Your task to perform on an android device: check data usage Image 0: 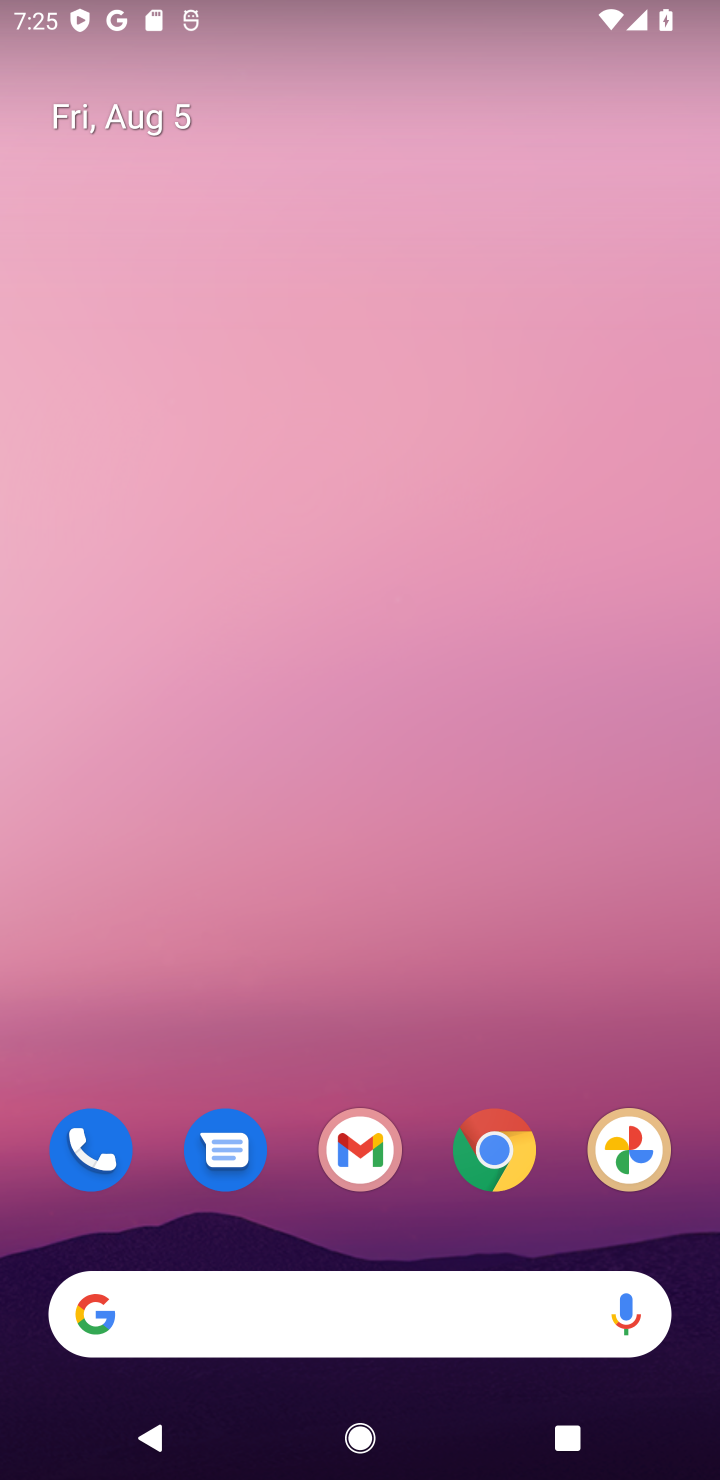
Step 0: drag from (442, 1018) to (464, 443)
Your task to perform on an android device: check data usage Image 1: 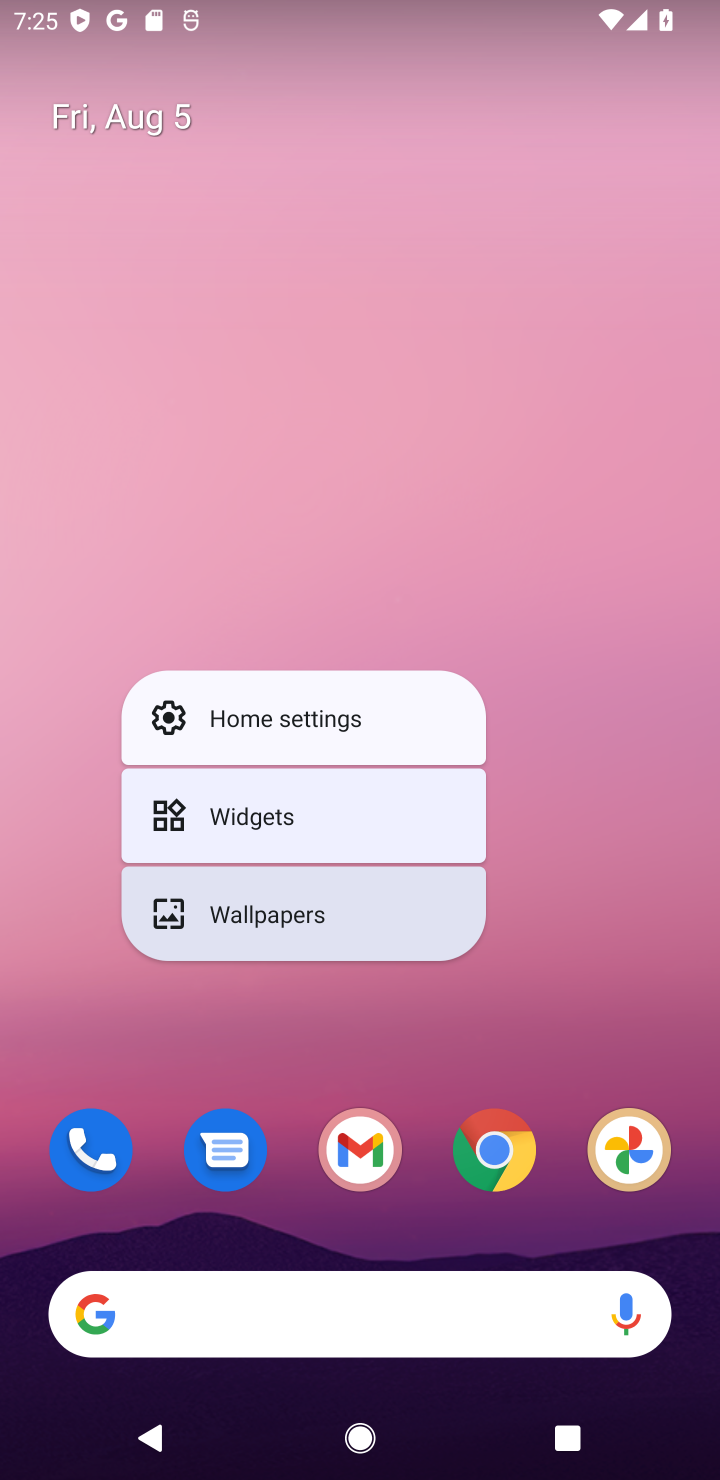
Step 1: click (560, 761)
Your task to perform on an android device: check data usage Image 2: 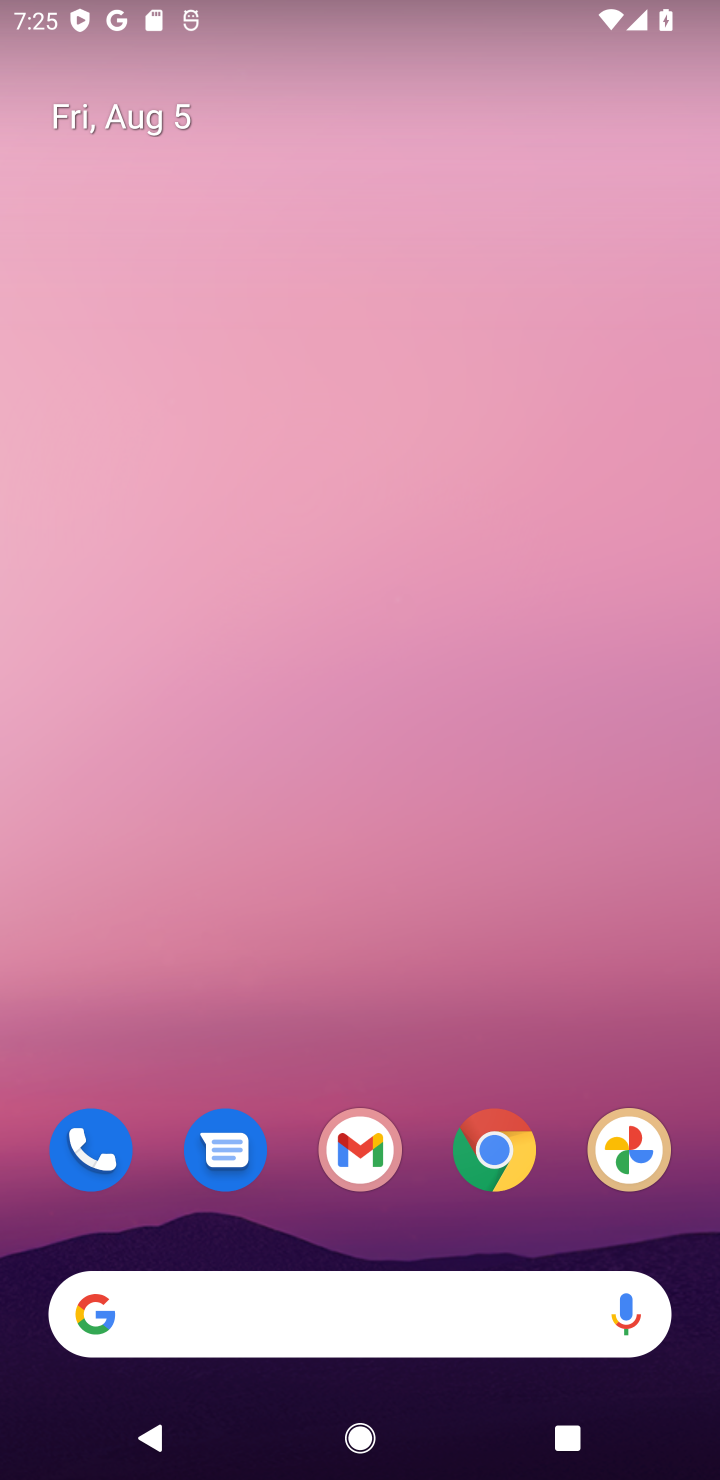
Step 2: drag from (409, 1108) to (446, 427)
Your task to perform on an android device: check data usage Image 3: 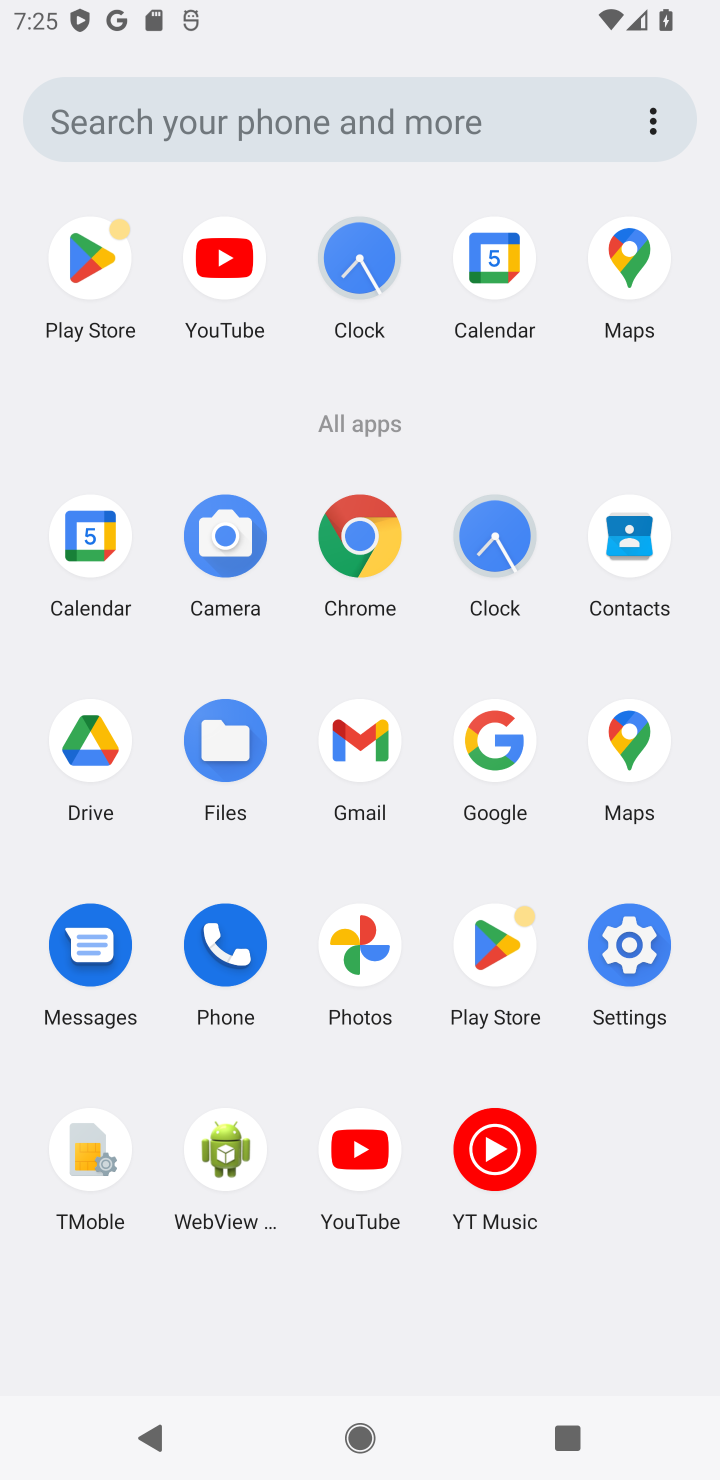
Step 3: click (644, 944)
Your task to perform on an android device: check data usage Image 4: 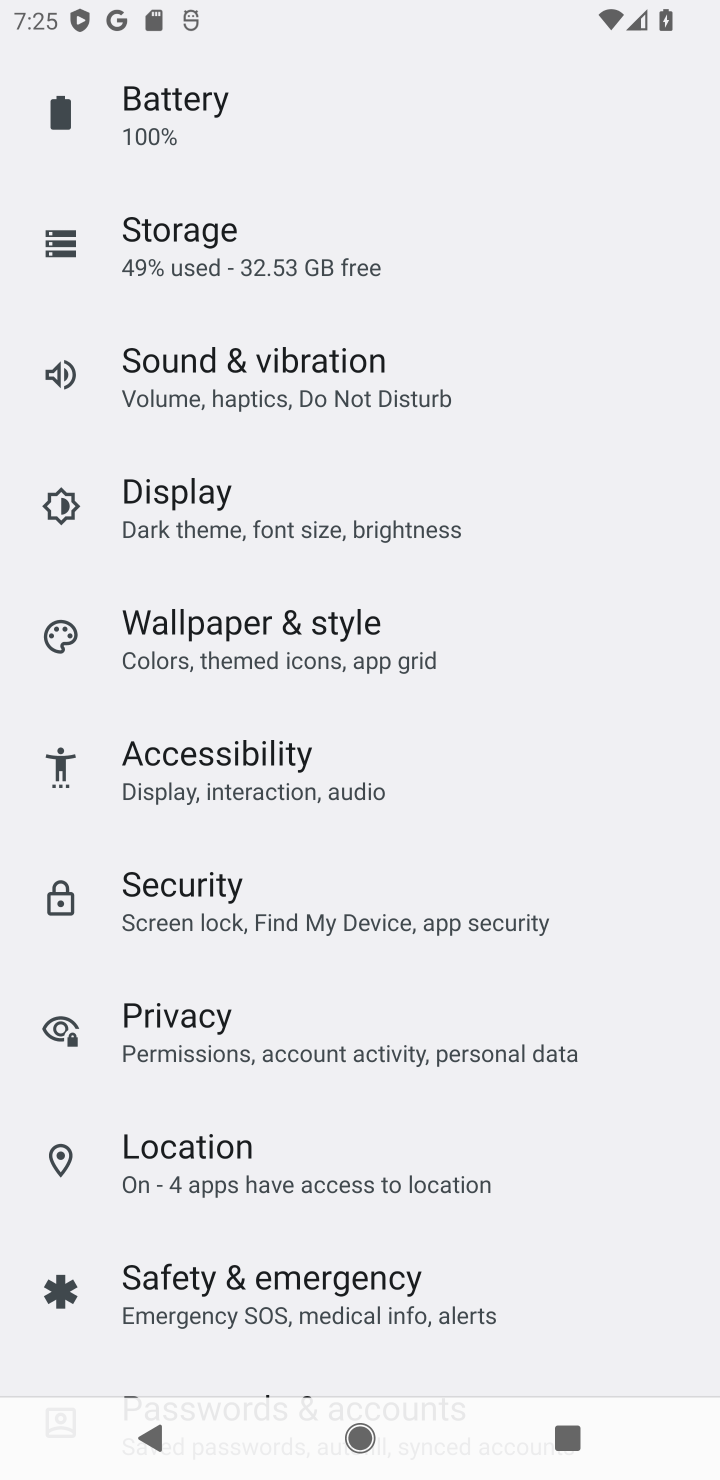
Step 4: drag from (589, 464) to (611, 639)
Your task to perform on an android device: check data usage Image 5: 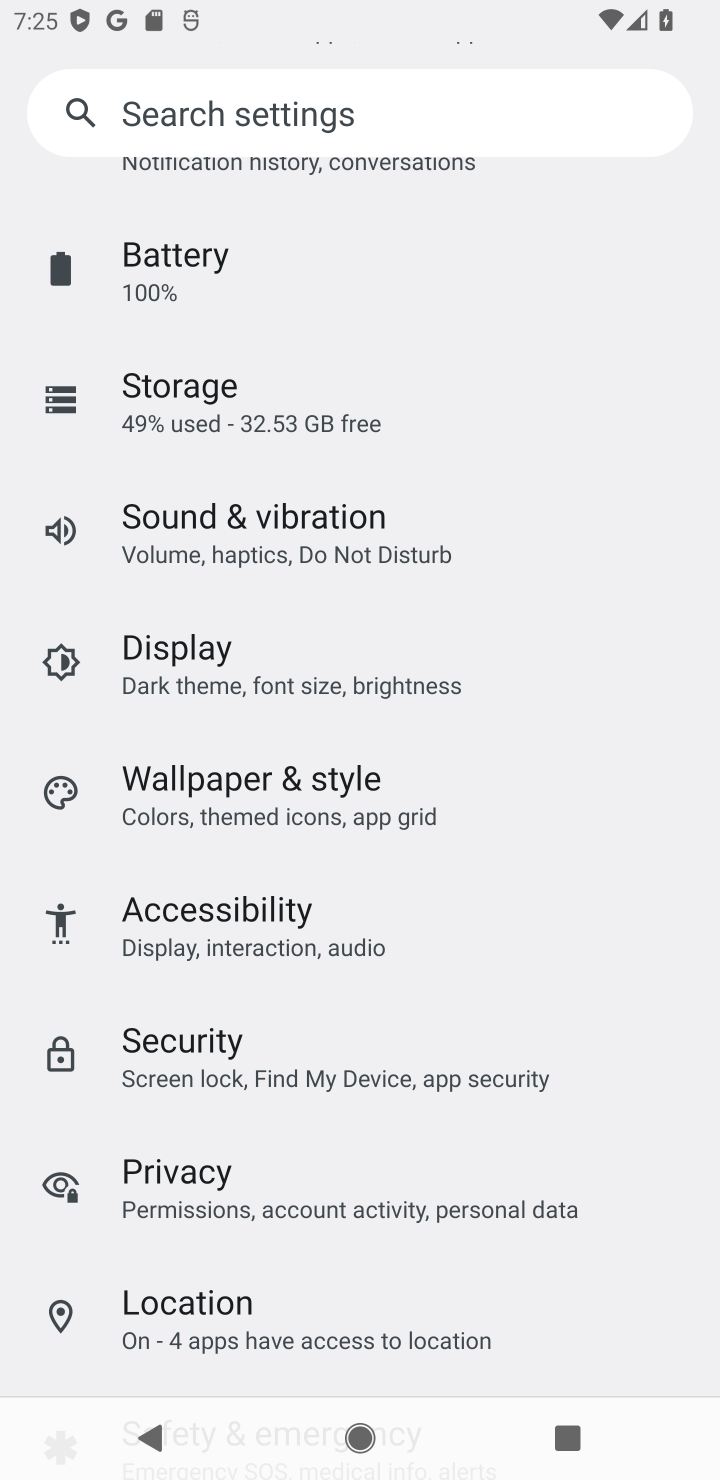
Step 5: drag from (606, 444) to (614, 686)
Your task to perform on an android device: check data usage Image 6: 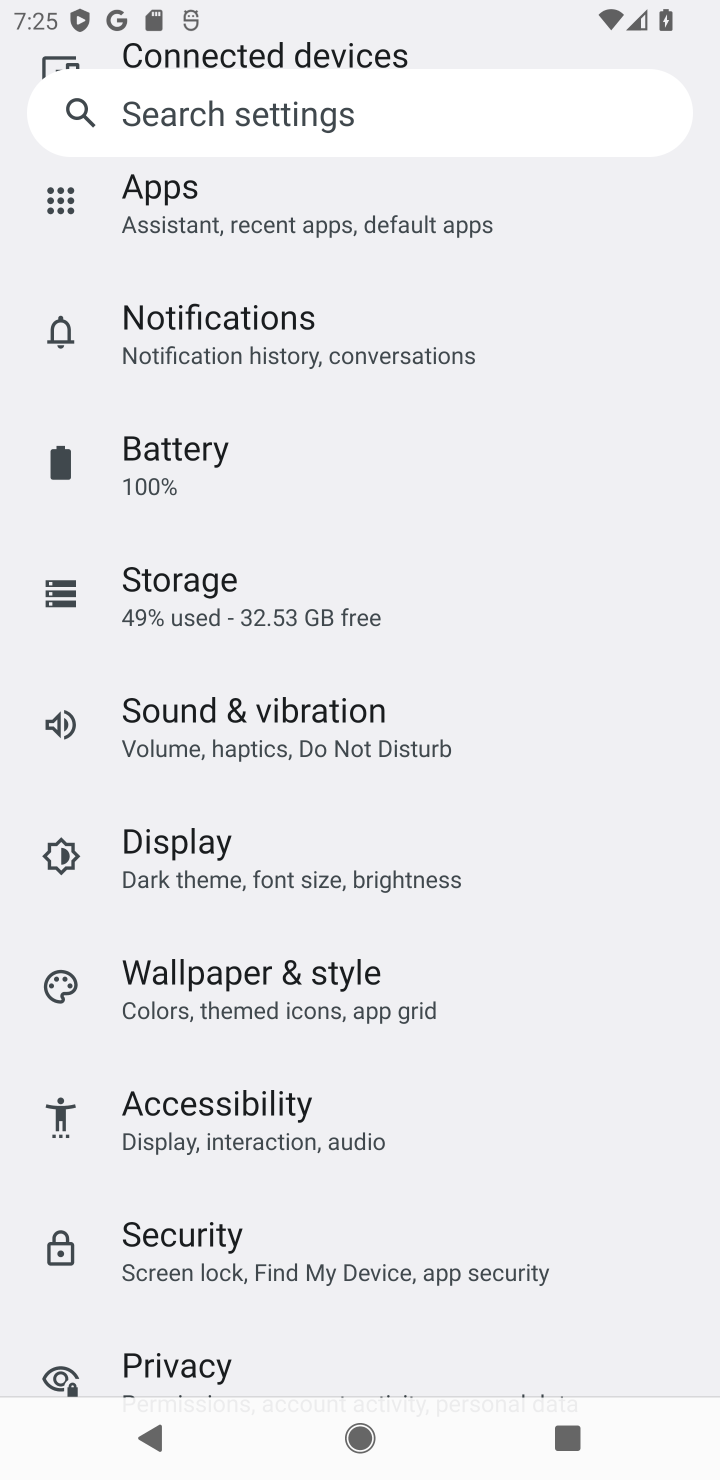
Step 6: drag from (593, 427) to (593, 514)
Your task to perform on an android device: check data usage Image 7: 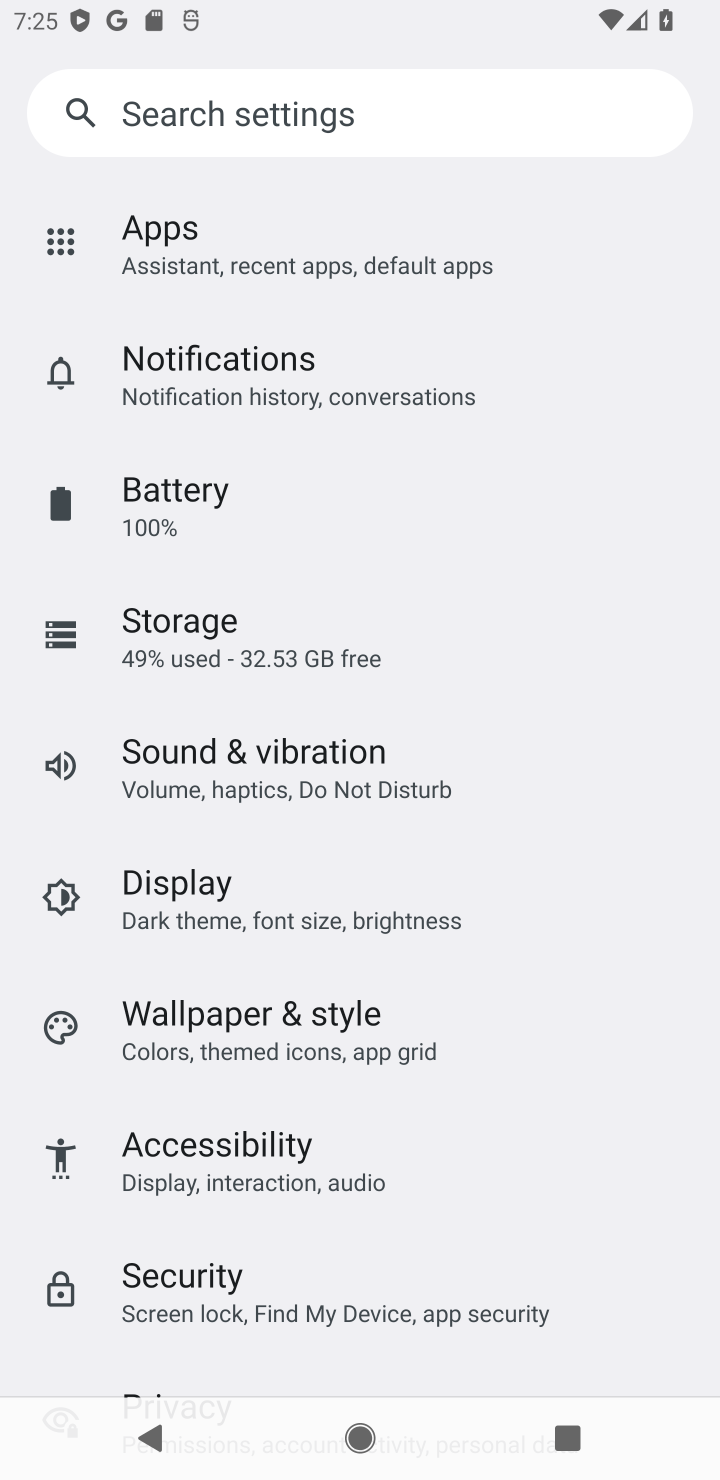
Step 7: drag from (624, 336) to (628, 683)
Your task to perform on an android device: check data usage Image 8: 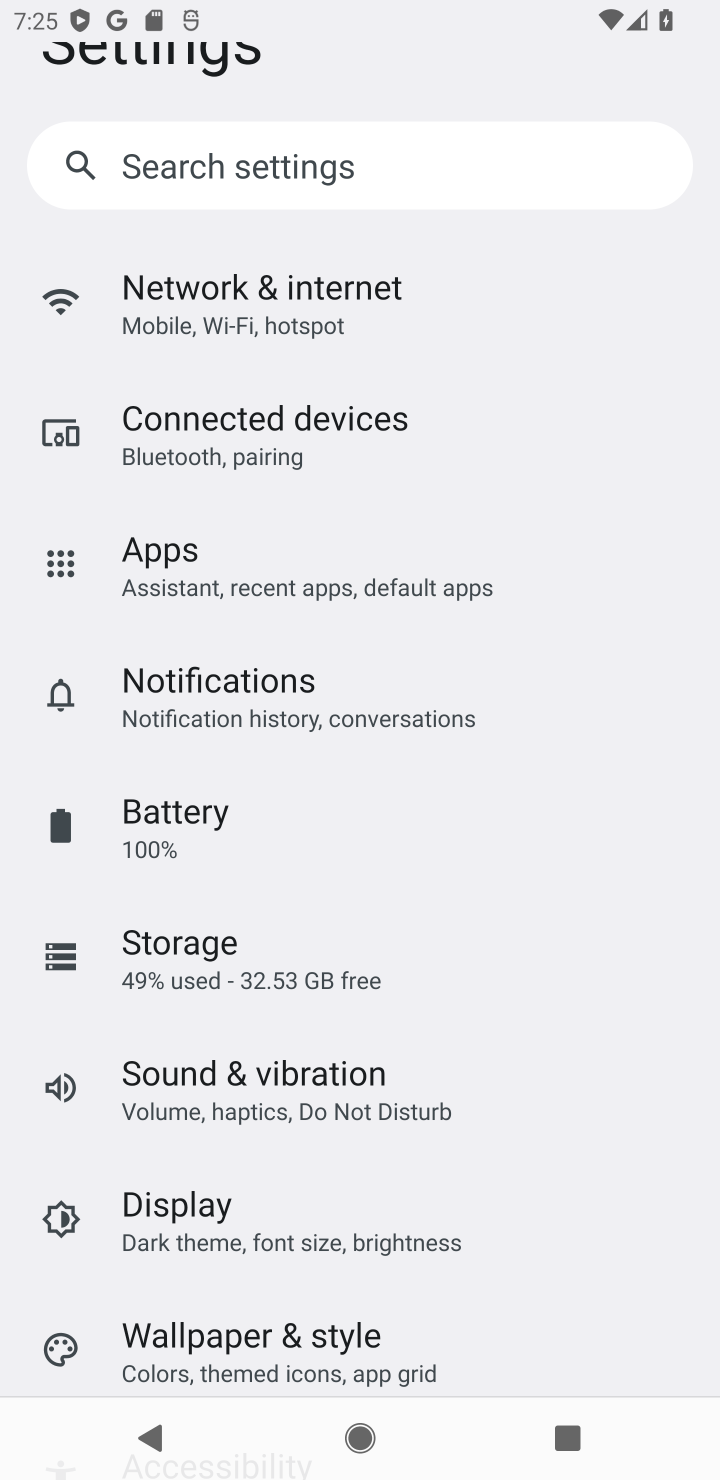
Step 8: drag from (615, 278) to (618, 555)
Your task to perform on an android device: check data usage Image 9: 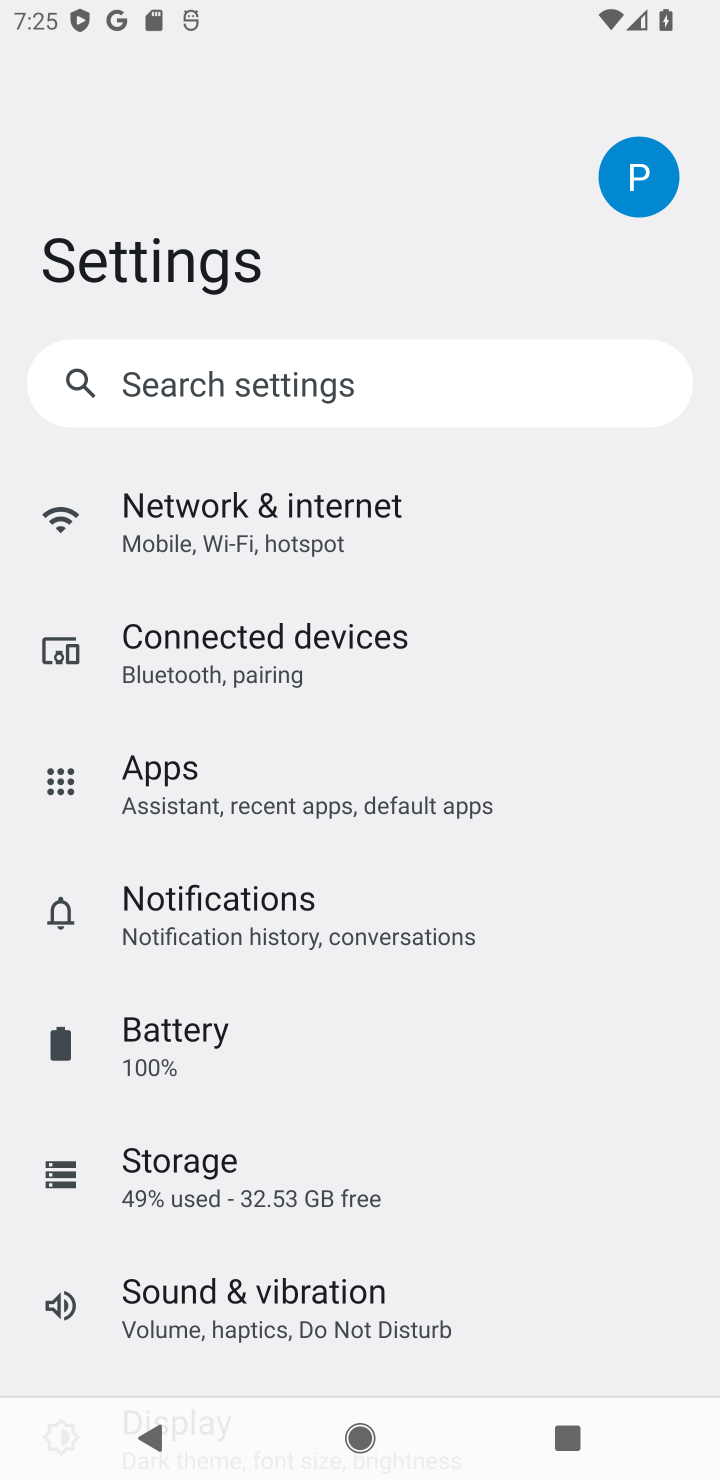
Step 9: drag from (589, 484) to (611, 754)
Your task to perform on an android device: check data usage Image 10: 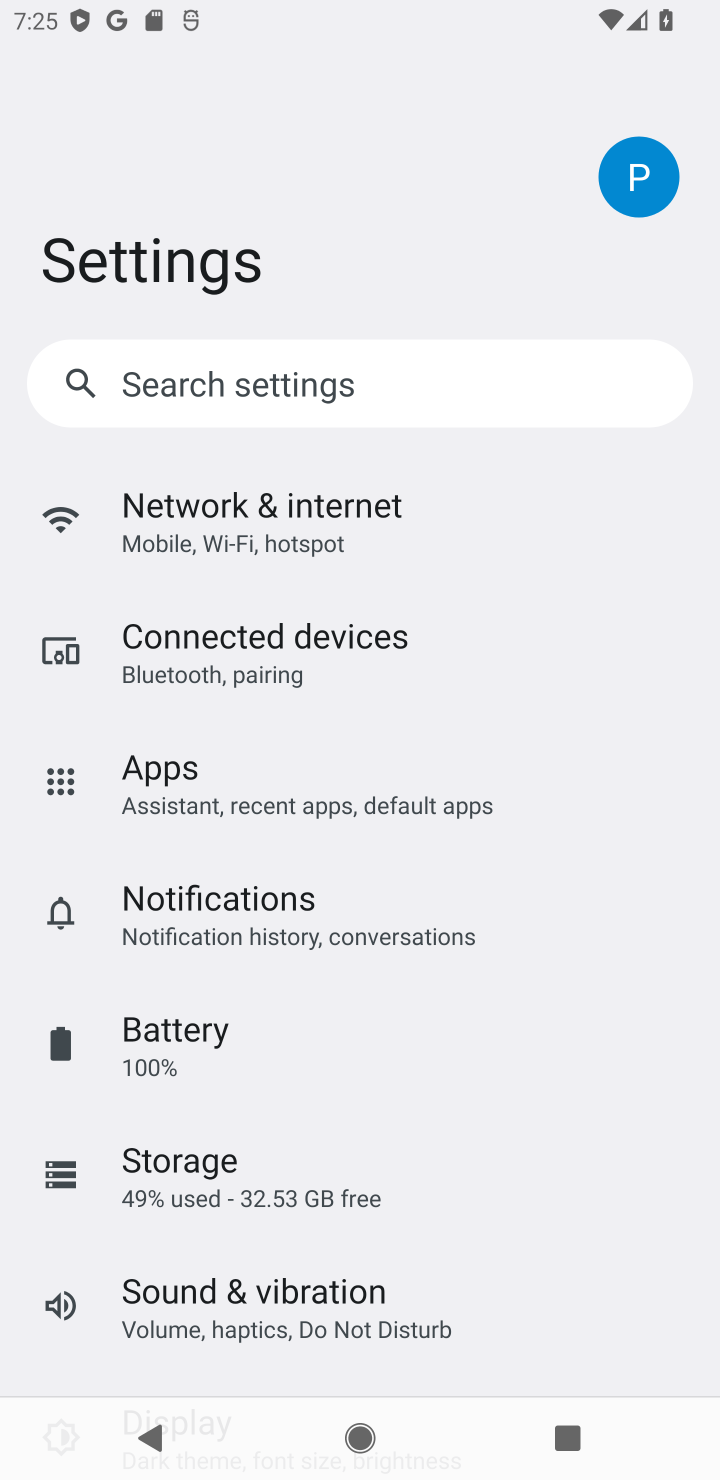
Step 10: drag from (609, 502) to (614, 791)
Your task to perform on an android device: check data usage Image 11: 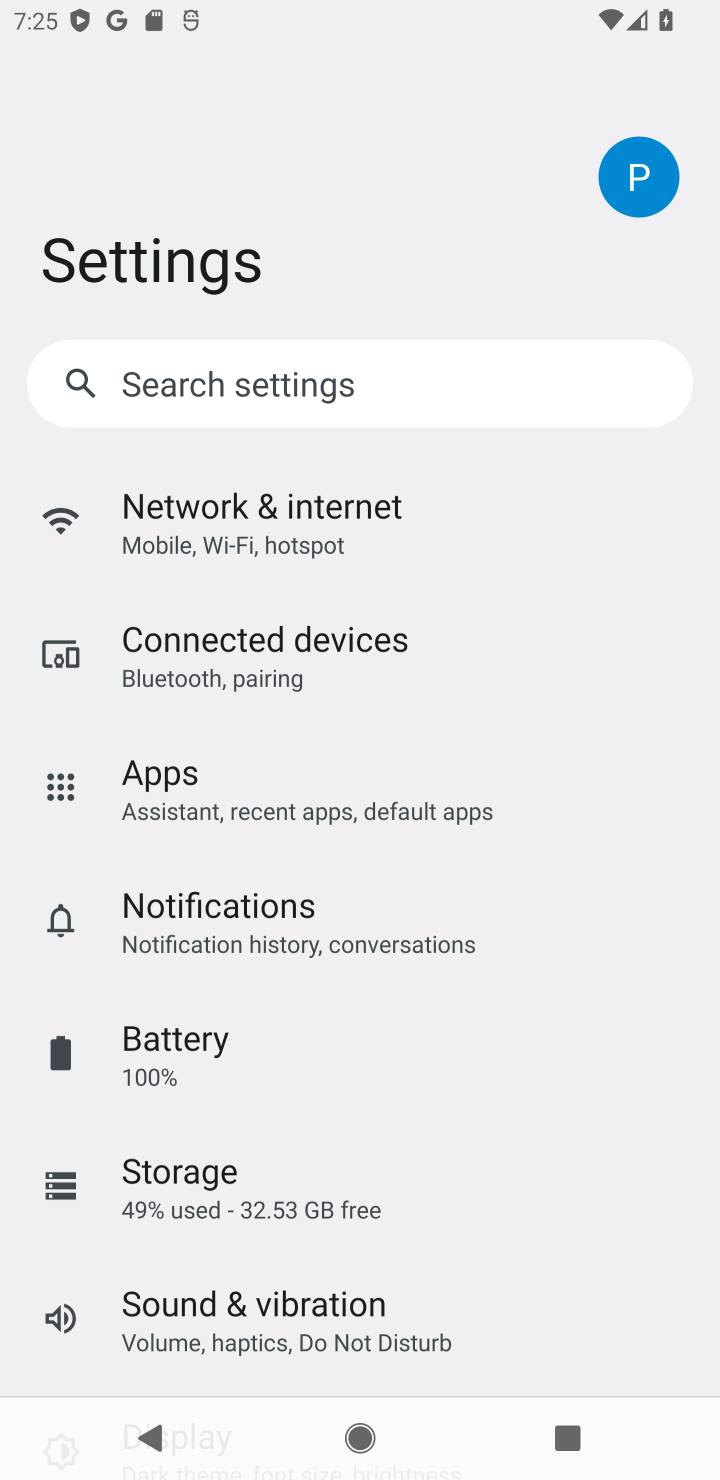
Step 11: drag from (539, 1033) to (583, 655)
Your task to perform on an android device: check data usage Image 12: 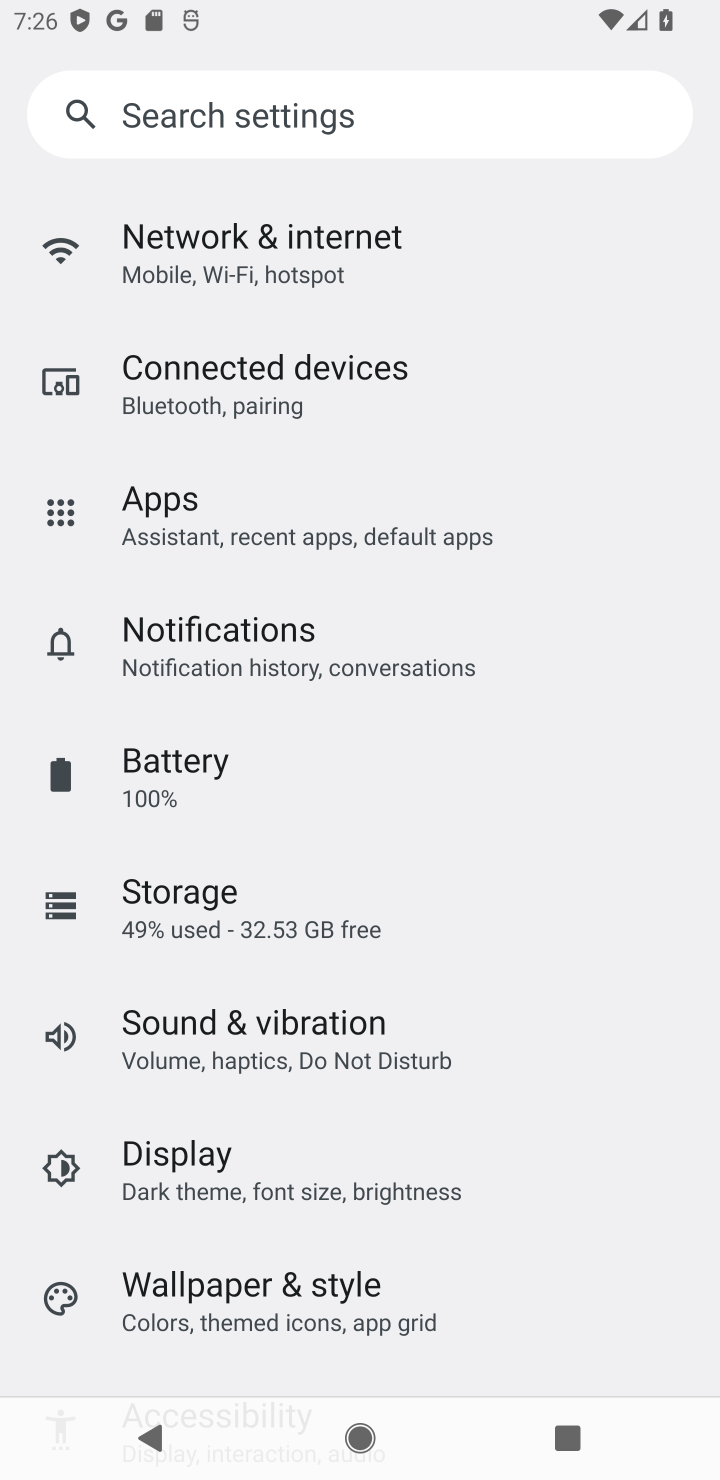
Step 12: drag from (555, 1016) to (561, 689)
Your task to perform on an android device: check data usage Image 13: 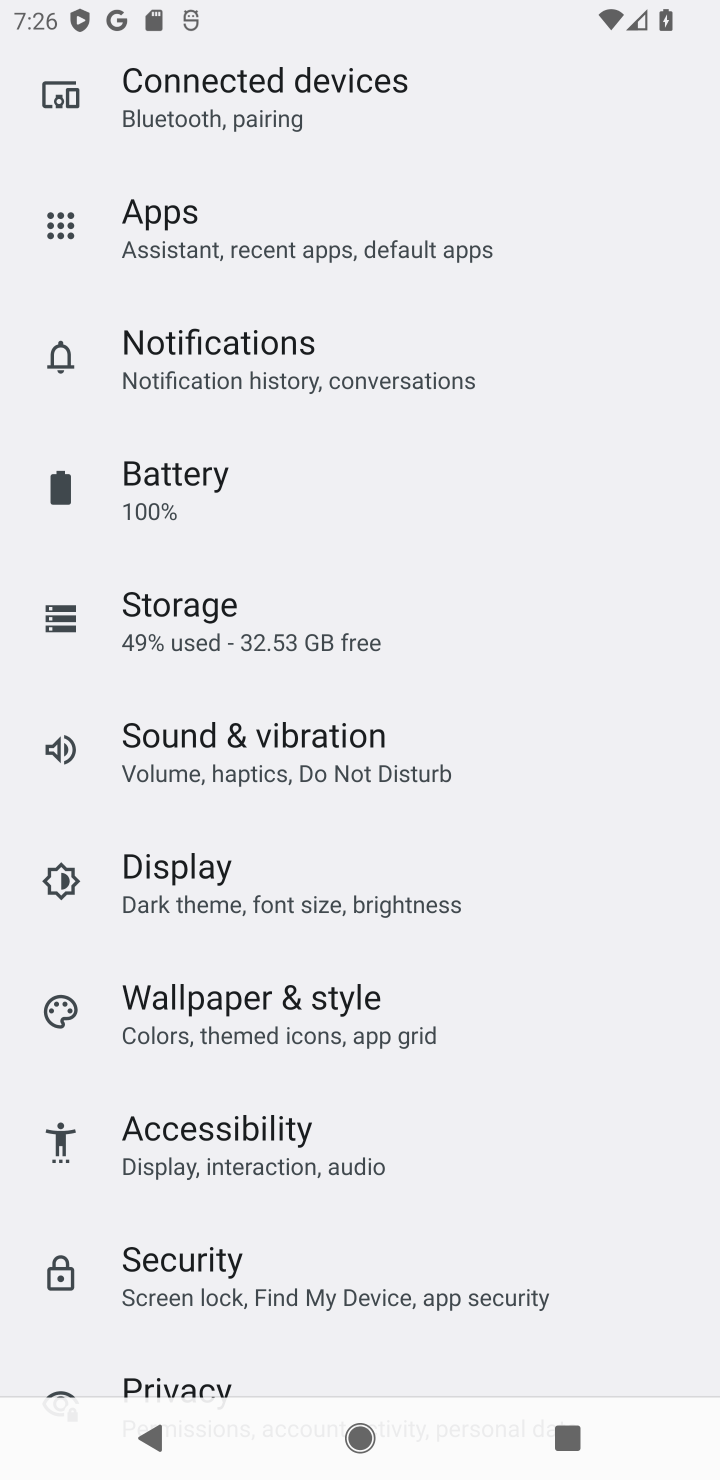
Step 13: drag from (540, 1065) to (531, 703)
Your task to perform on an android device: check data usage Image 14: 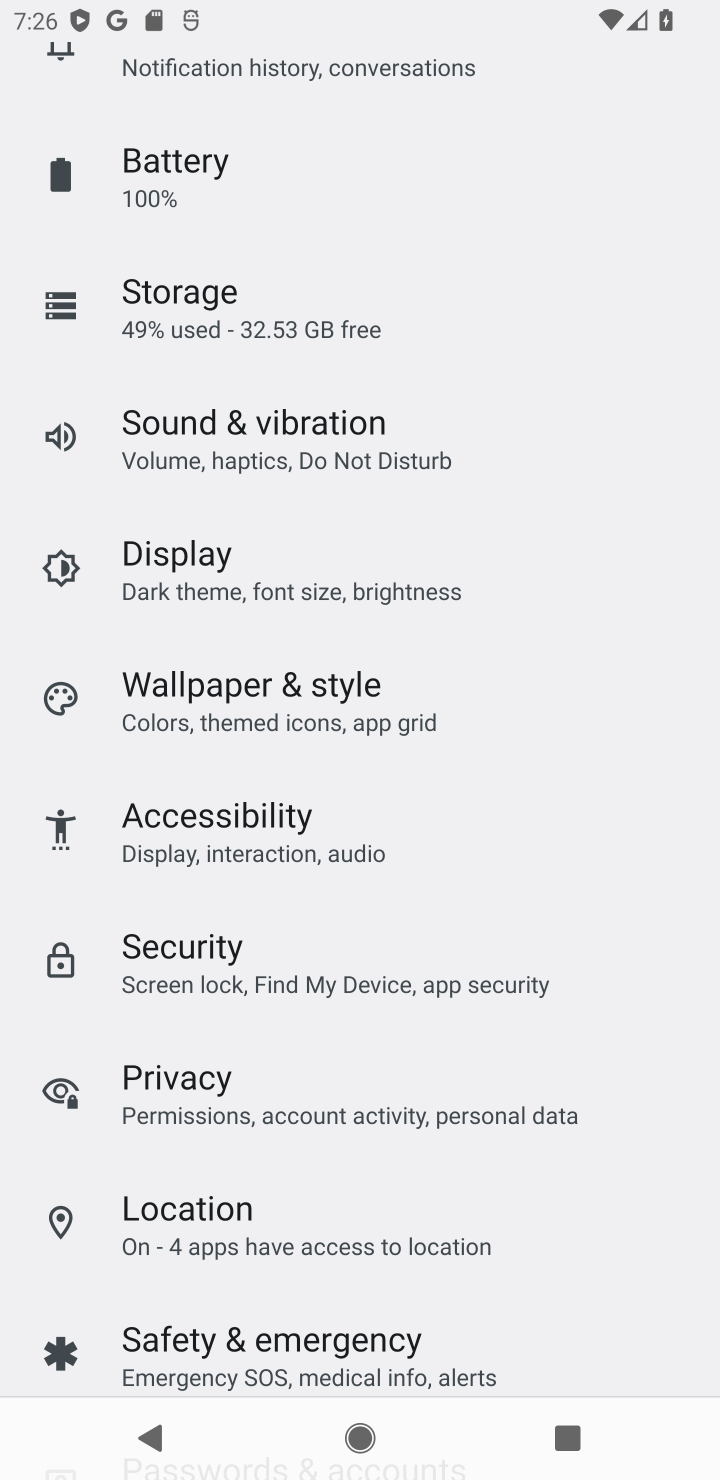
Step 14: drag from (462, 984) to (471, 757)
Your task to perform on an android device: check data usage Image 15: 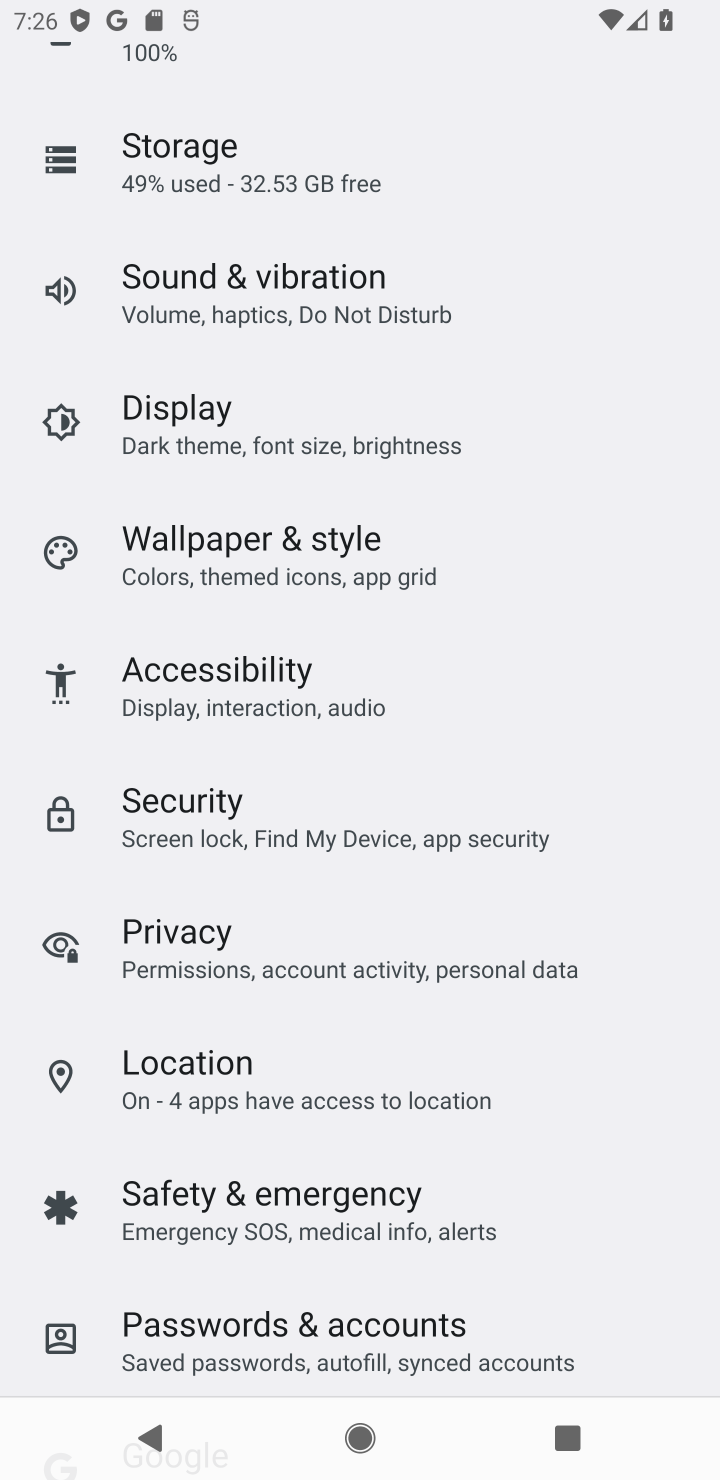
Step 15: drag from (592, 393) to (613, 776)
Your task to perform on an android device: check data usage Image 16: 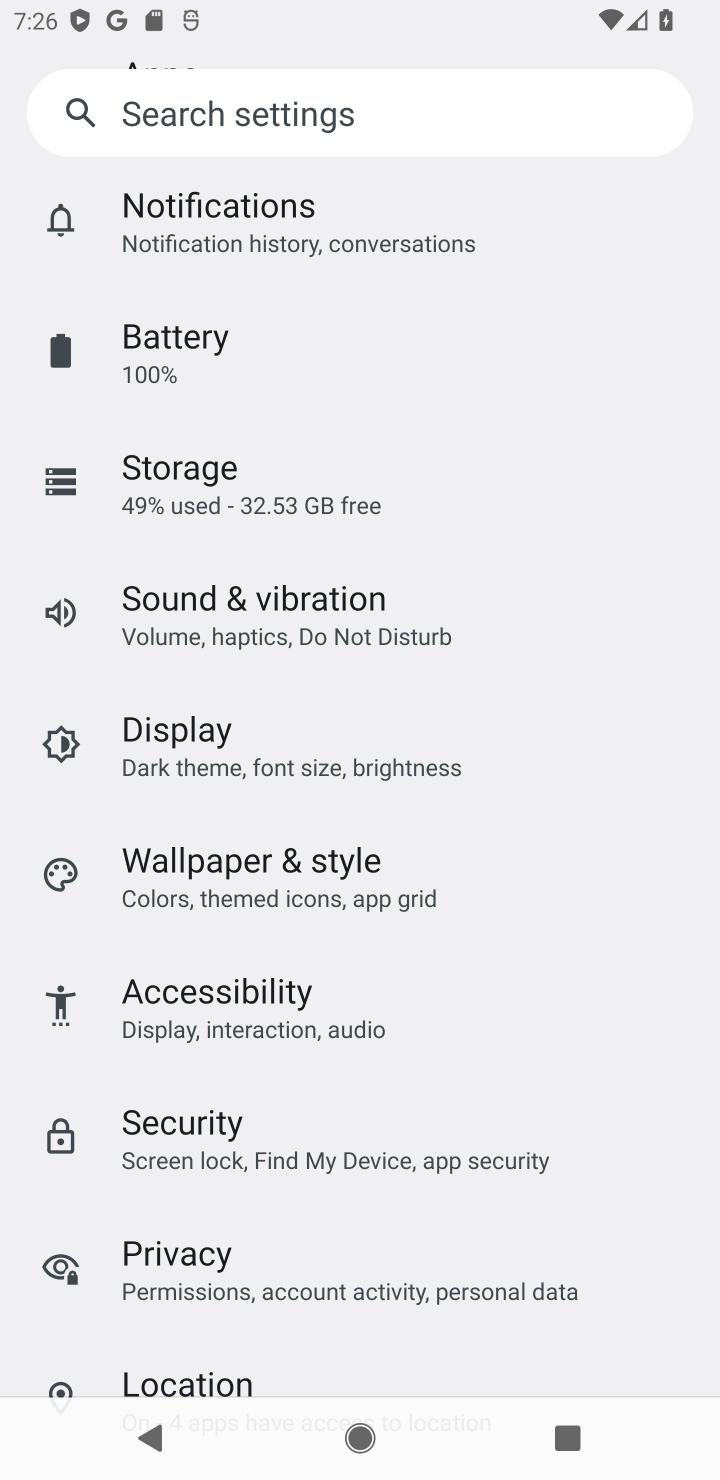
Step 16: drag from (578, 421) to (581, 805)
Your task to perform on an android device: check data usage Image 17: 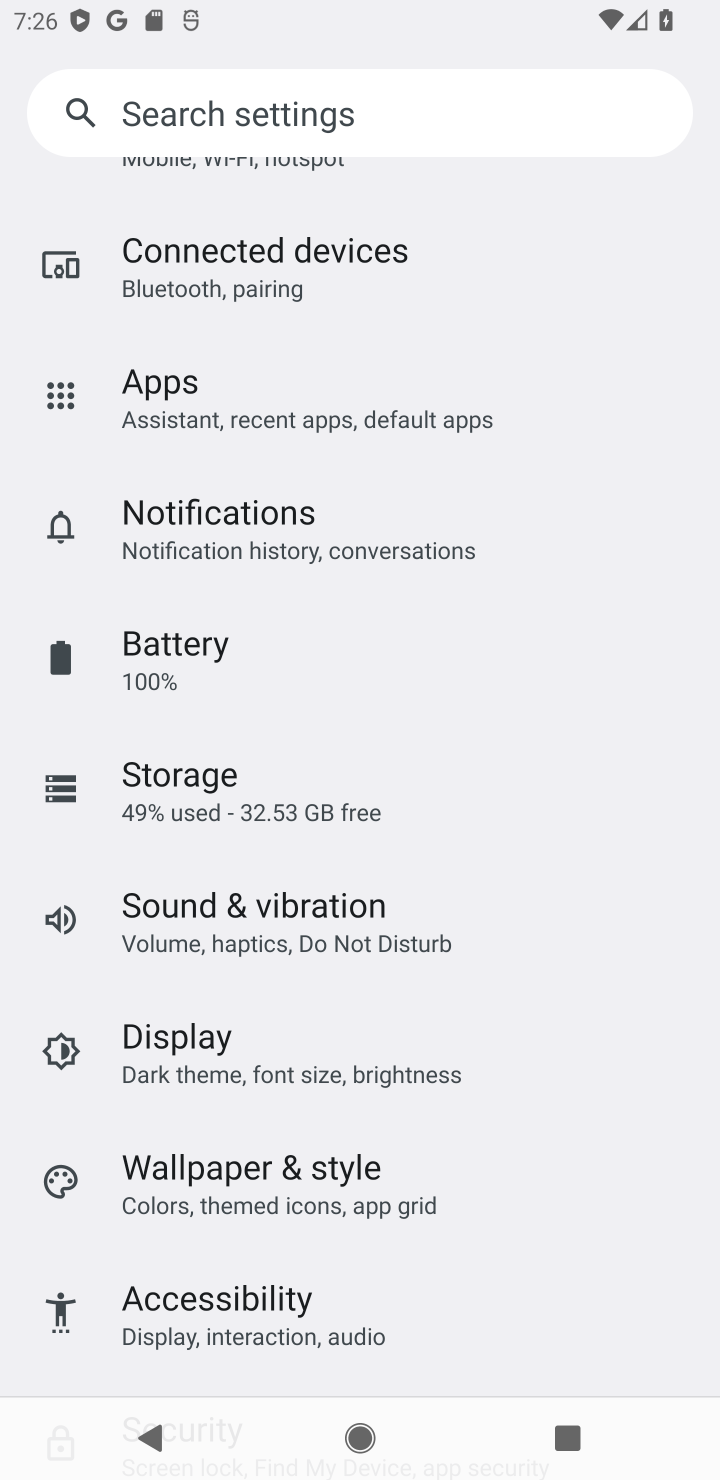
Step 17: drag from (589, 458) to (555, 802)
Your task to perform on an android device: check data usage Image 18: 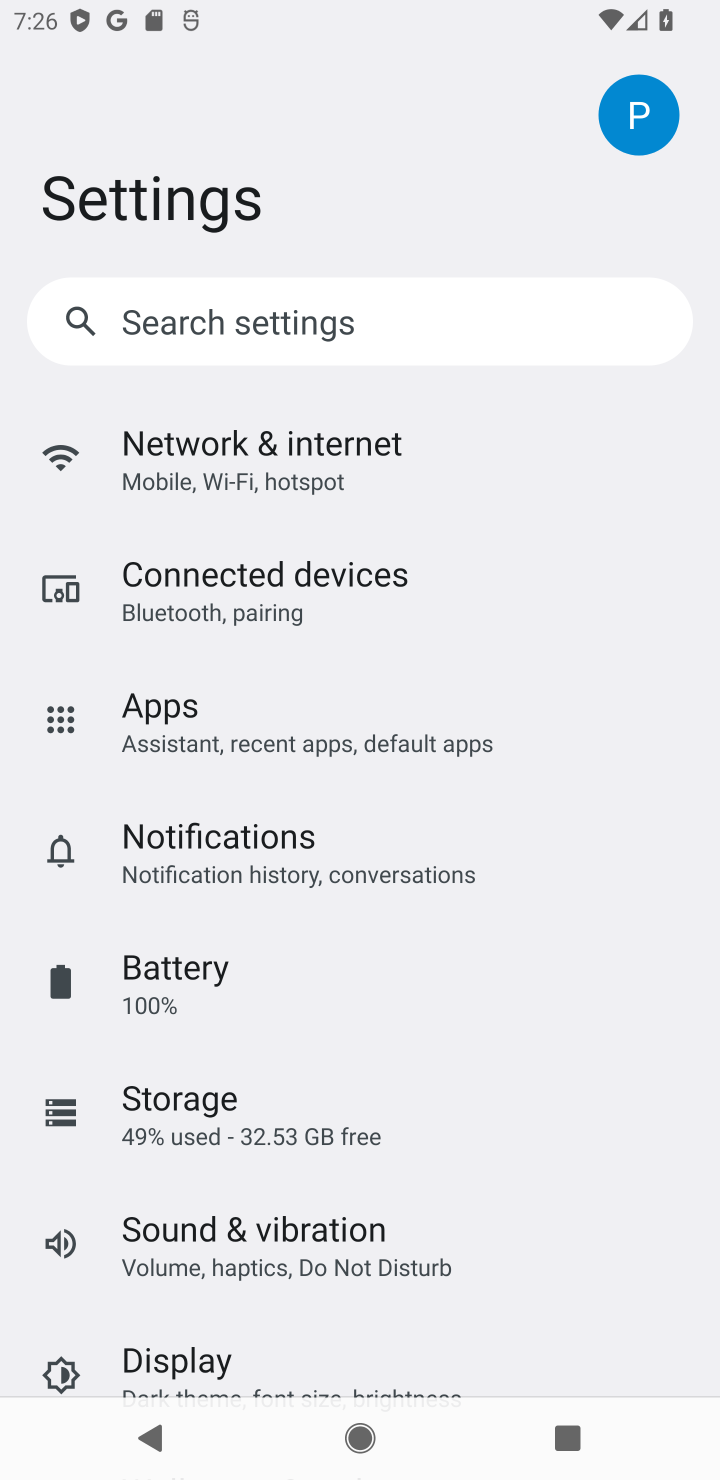
Step 18: drag from (541, 480) to (574, 865)
Your task to perform on an android device: check data usage Image 19: 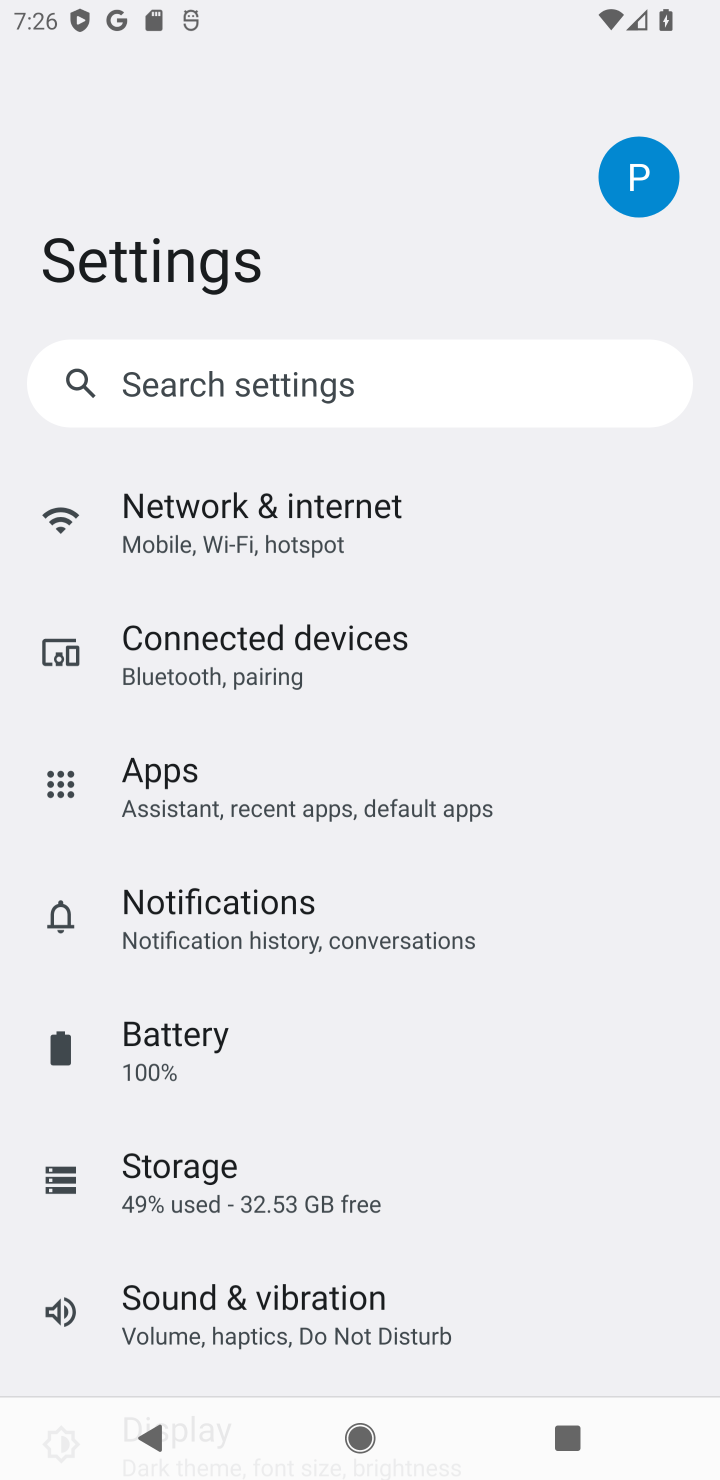
Step 19: drag from (577, 974) to (586, 775)
Your task to perform on an android device: check data usage Image 20: 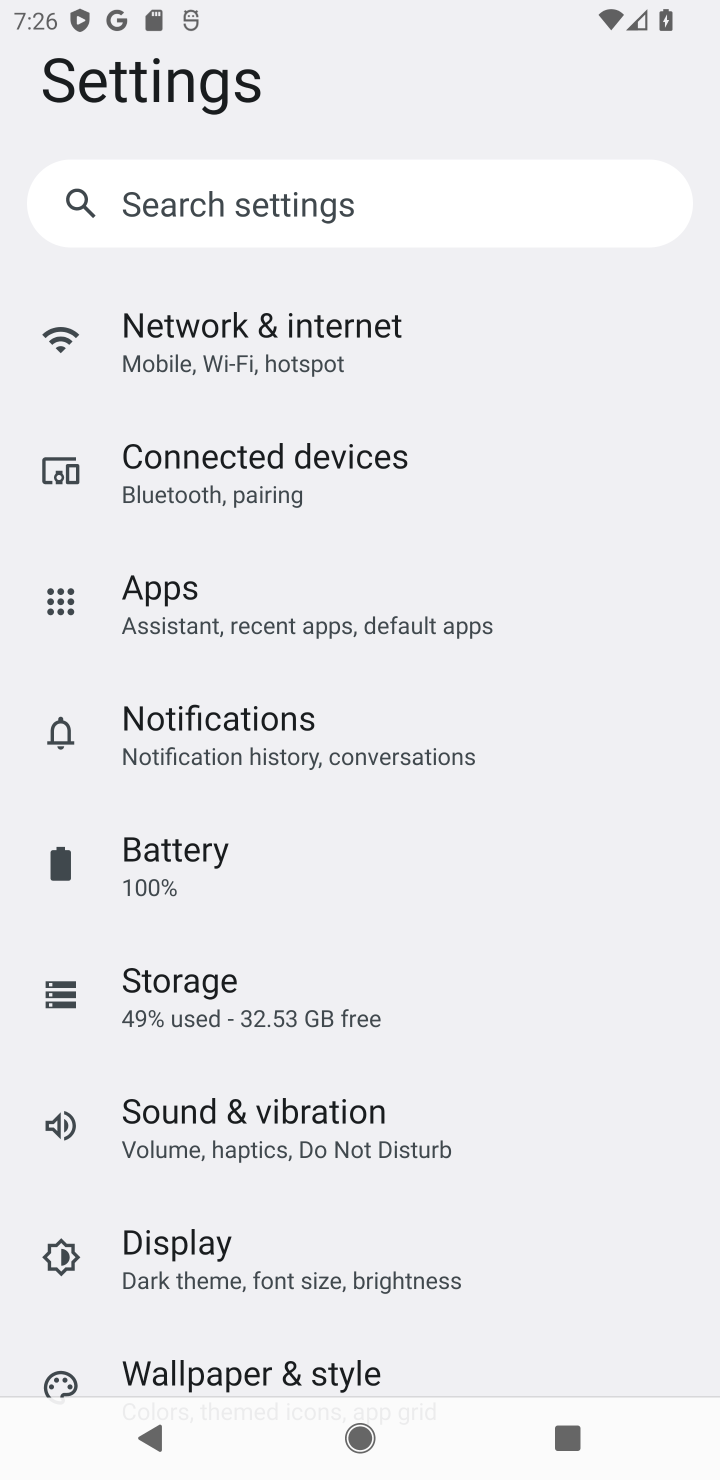
Step 20: drag from (579, 965) to (579, 673)
Your task to perform on an android device: check data usage Image 21: 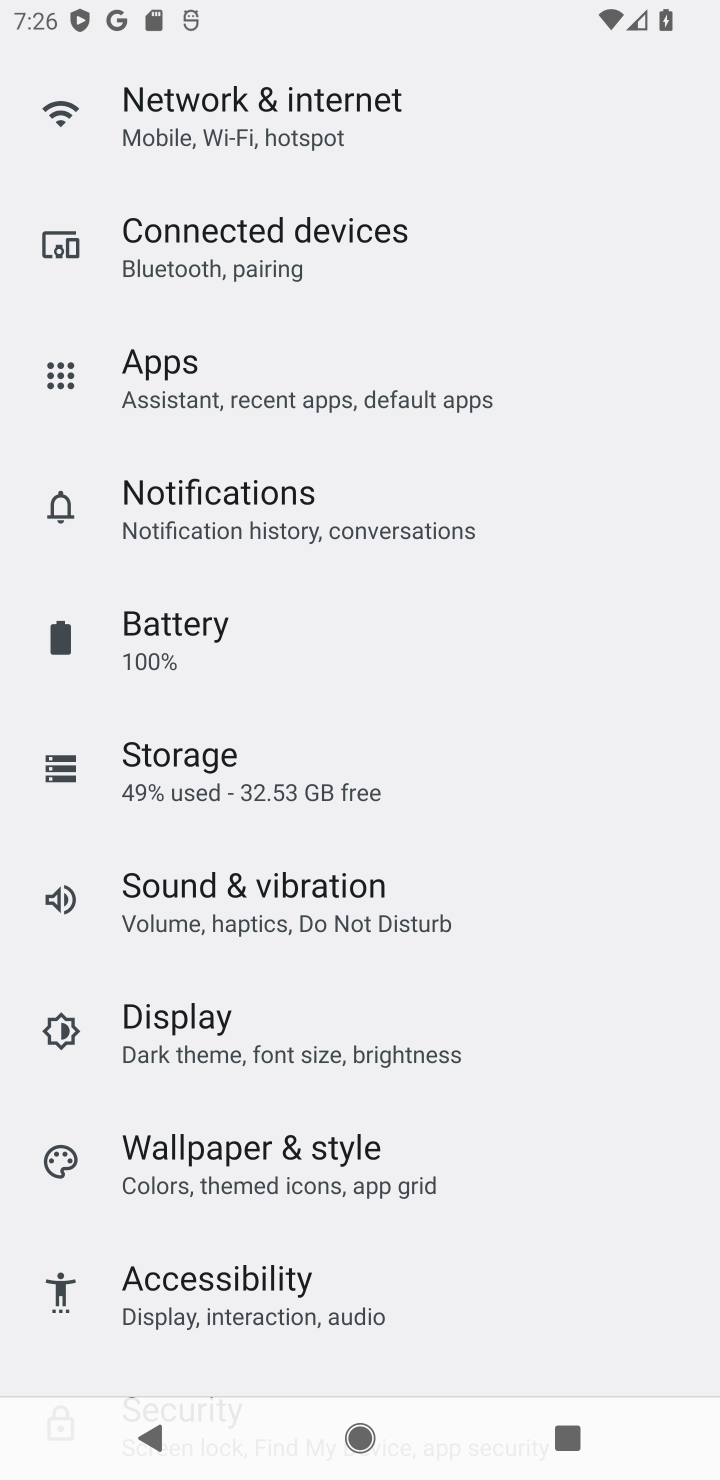
Step 21: drag from (616, 914) to (625, 651)
Your task to perform on an android device: check data usage Image 22: 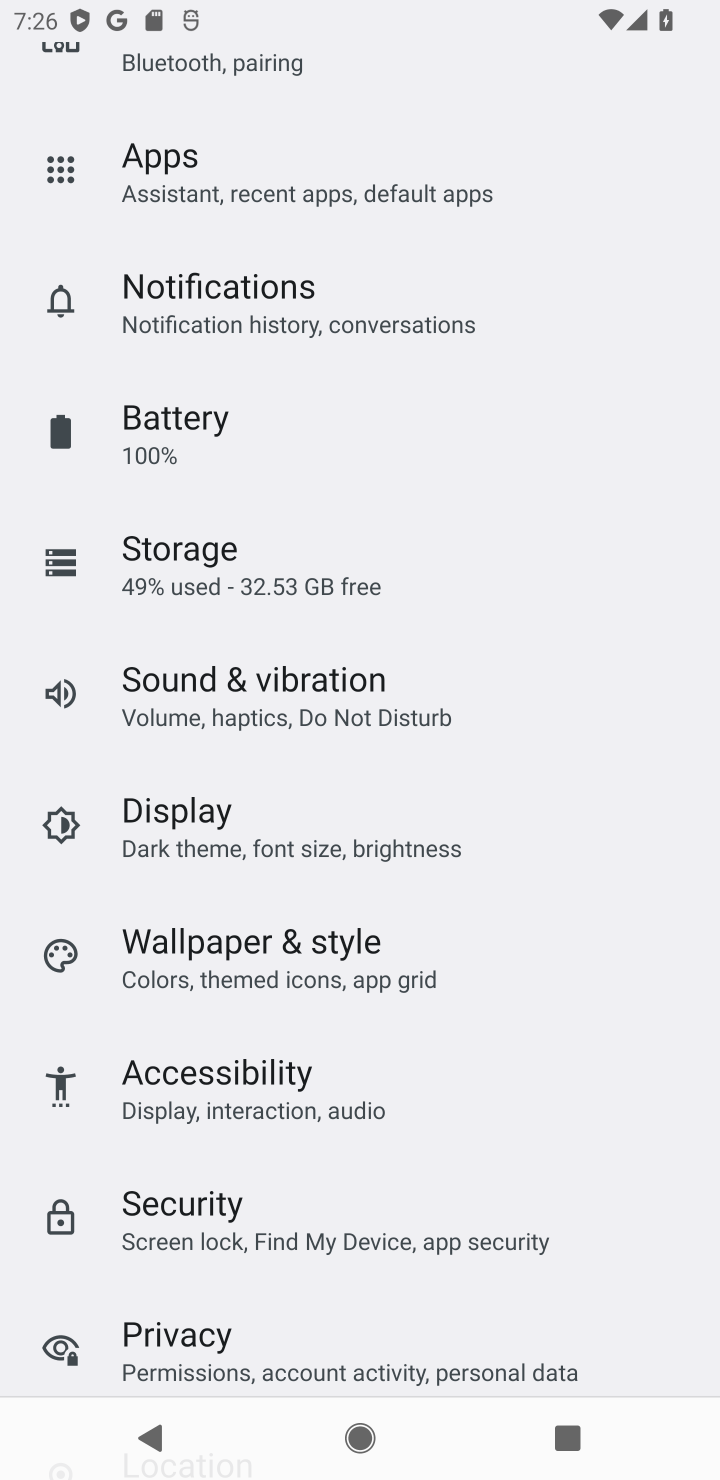
Step 22: drag from (546, 450) to (542, 729)
Your task to perform on an android device: check data usage Image 23: 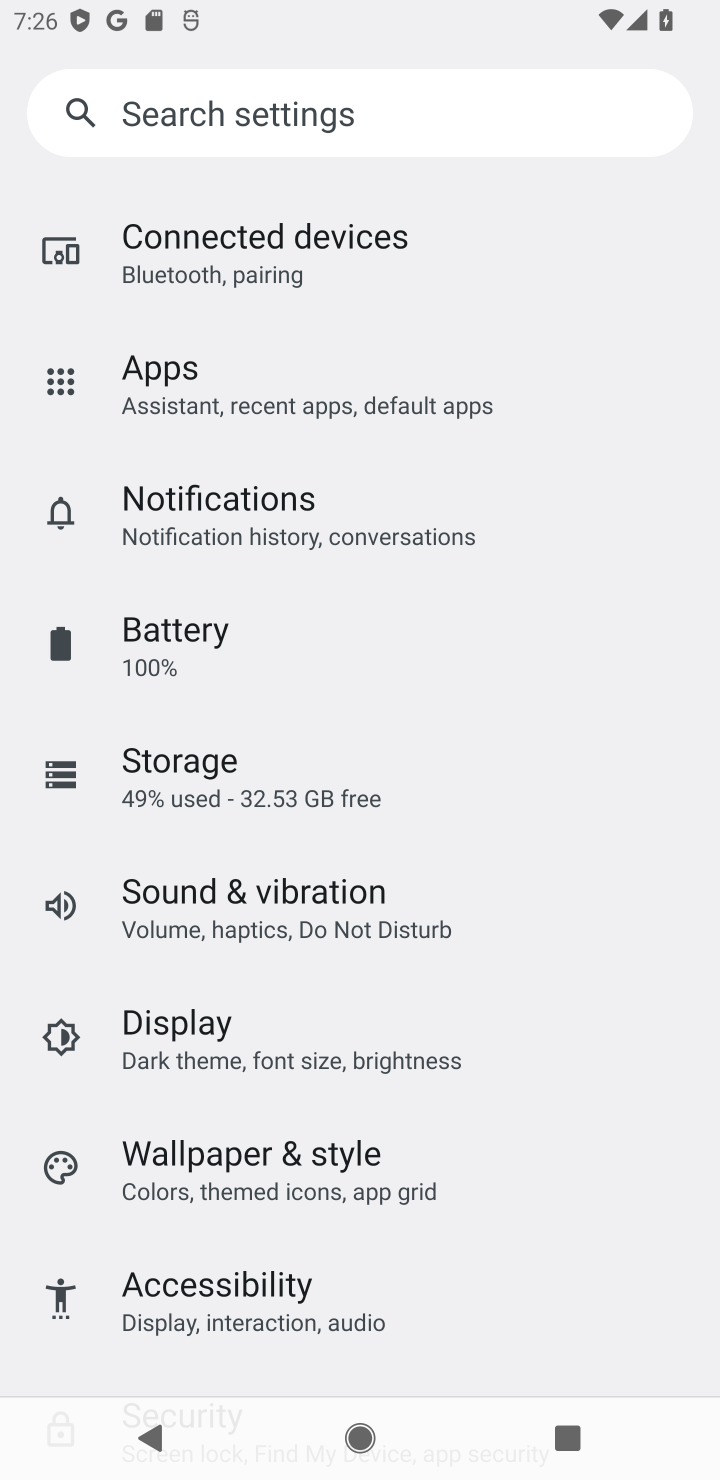
Step 23: drag from (574, 326) to (557, 684)
Your task to perform on an android device: check data usage Image 24: 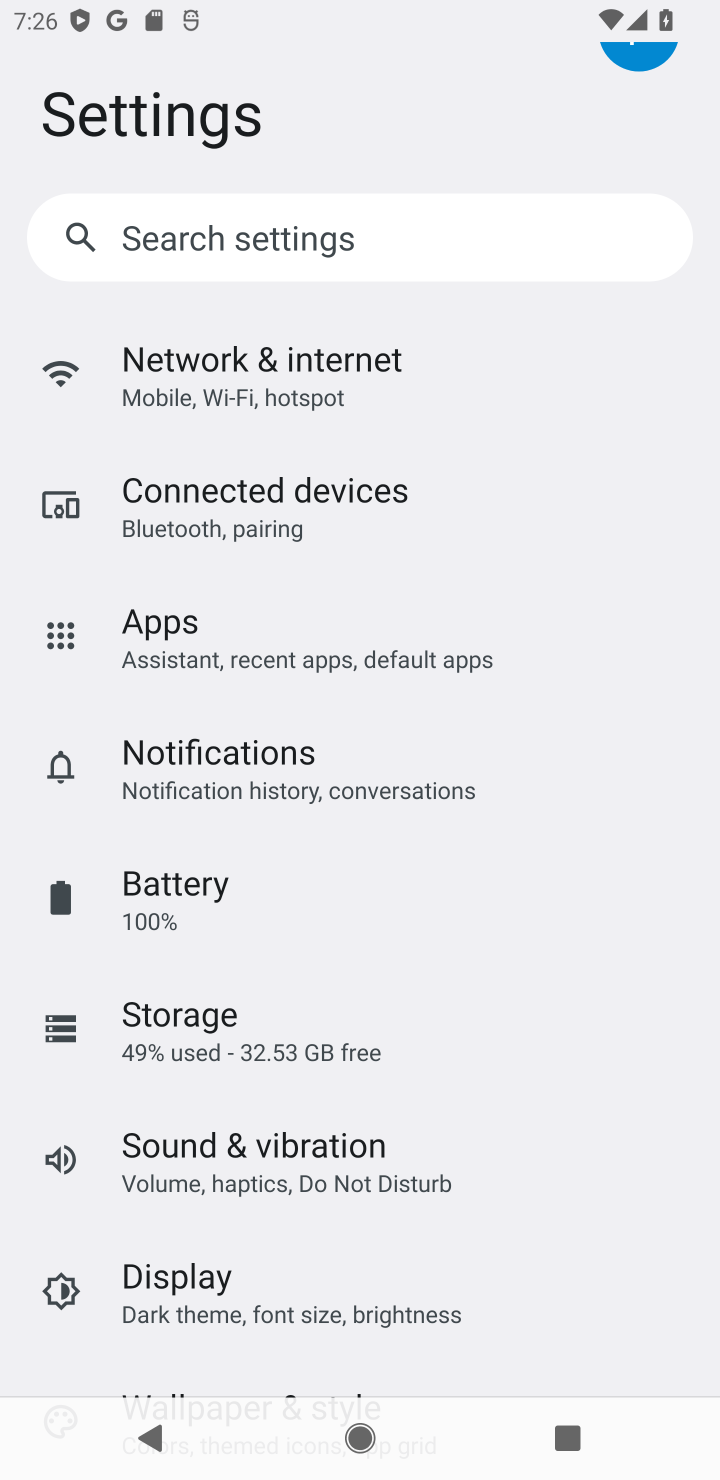
Step 24: drag from (576, 396) to (566, 751)
Your task to perform on an android device: check data usage Image 25: 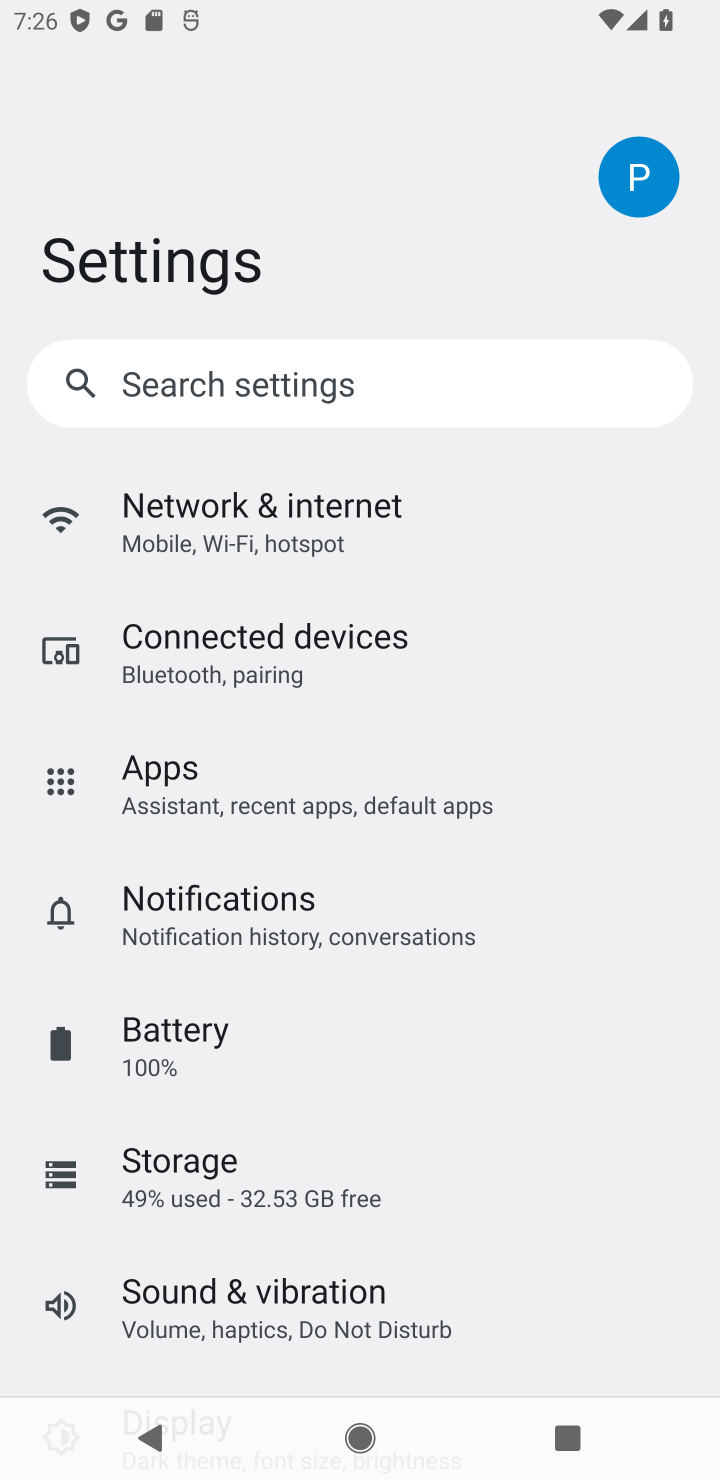
Step 25: drag from (525, 956) to (534, 697)
Your task to perform on an android device: check data usage Image 26: 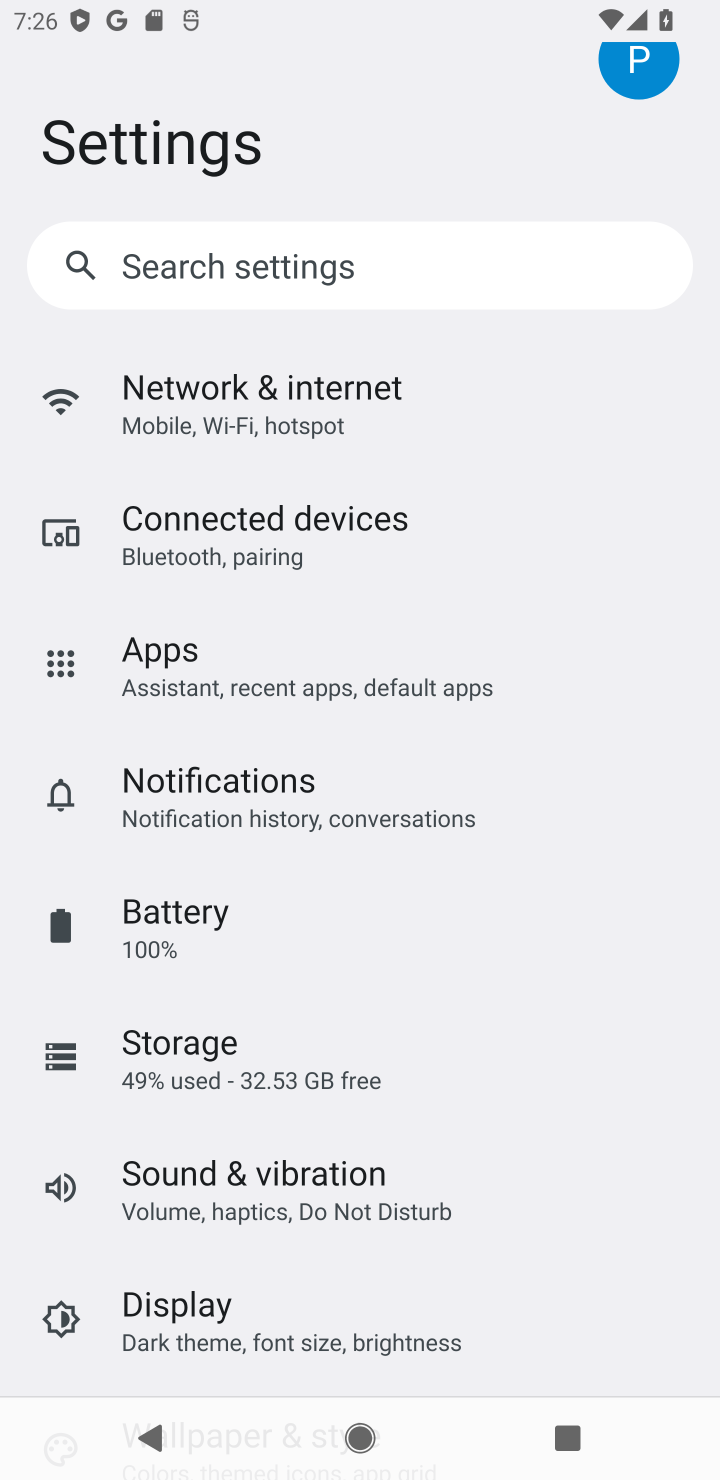
Step 26: drag from (504, 969) to (542, 642)
Your task to perform on an android device: check data usage Image 27: 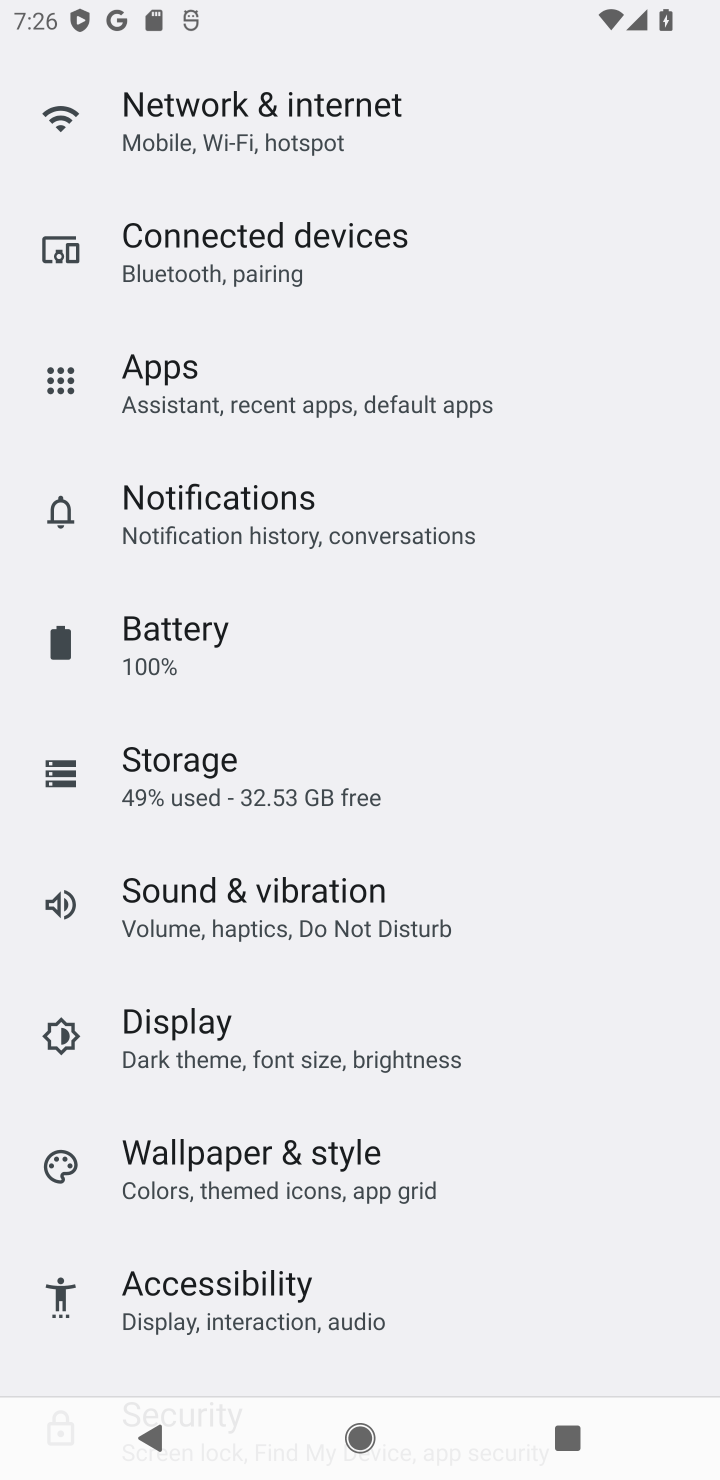
Step 27: drag from (528, 956) to (550, 571)
Your task to perform on an android device: check data usage Image 28: 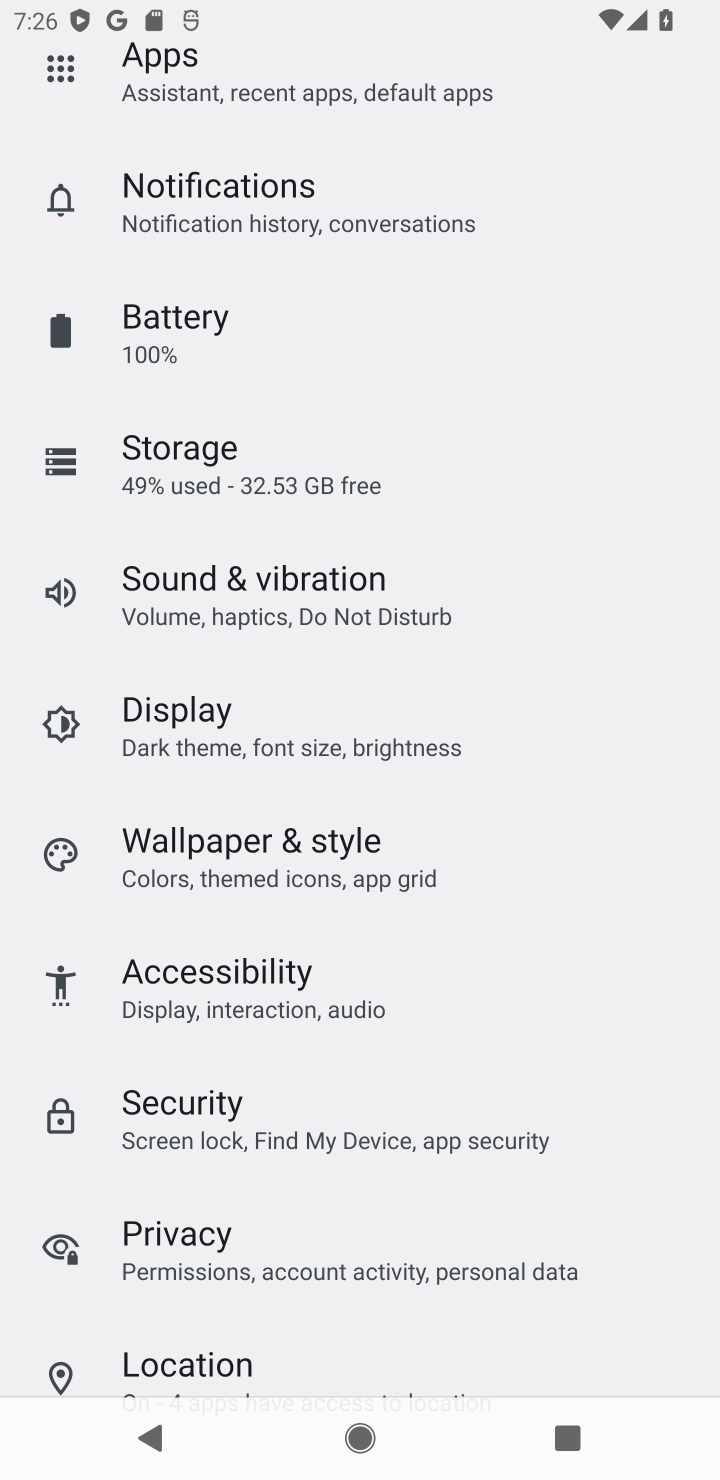
Step 28: drag from (549, 957) to (552, 647)
Your task to perform on an android device: check data usage Image 29: 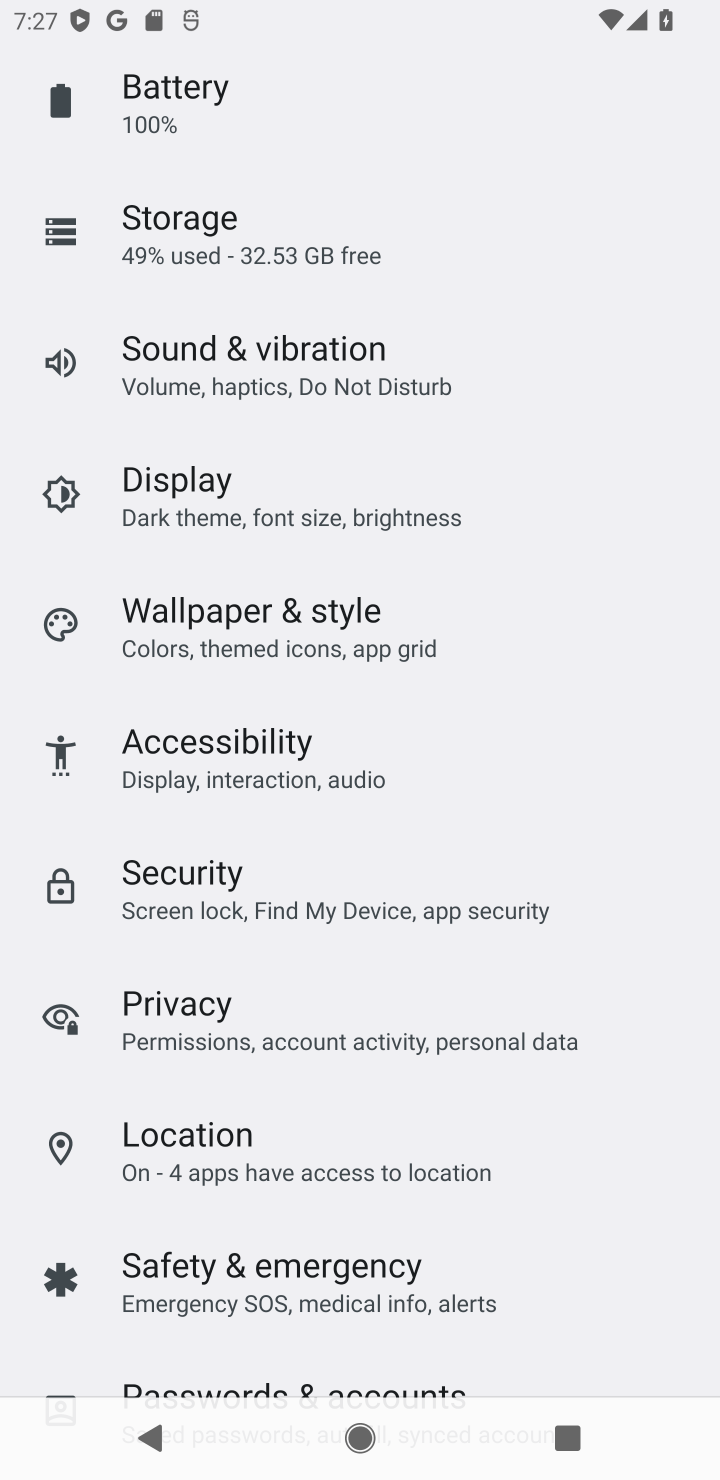
Step 29: drag from (601, 1069) to (599, 702)
Your task to perform on an android device: check data usage Image 30: 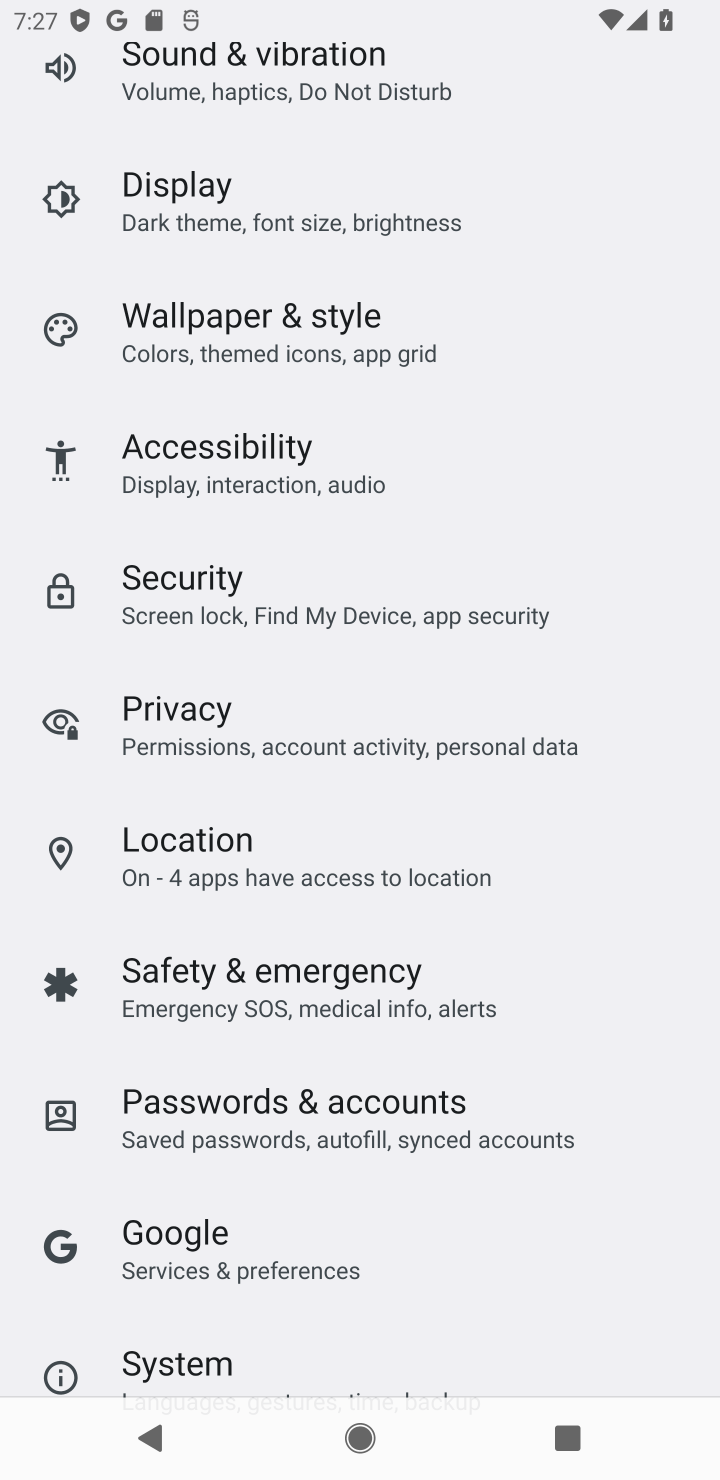
Step 30: drag from (569, 473) to (580, 961)
Your task to perform on an android device: check data usage Image 31: 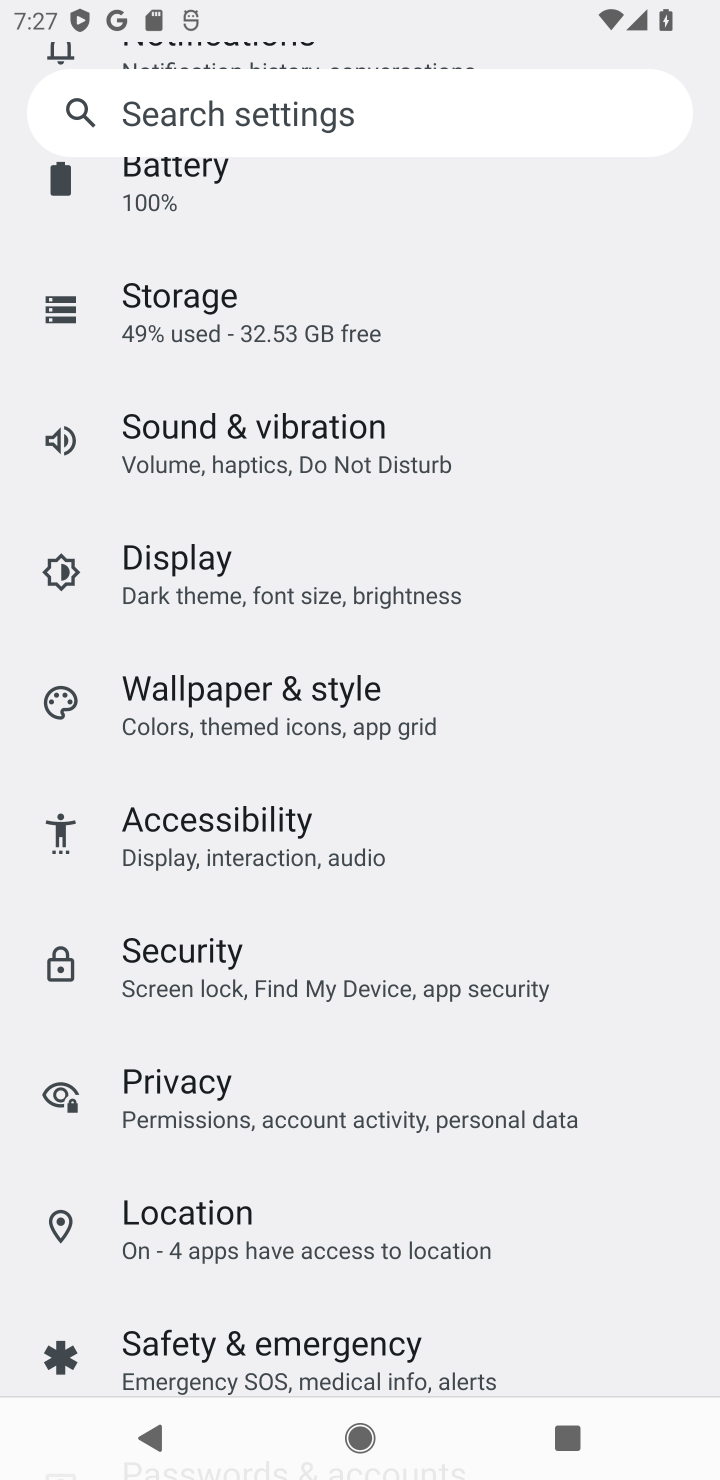
Step 31: drag from (579, 370) to (581, 846)
Your task to perform on an android device: check data usage Image 32: 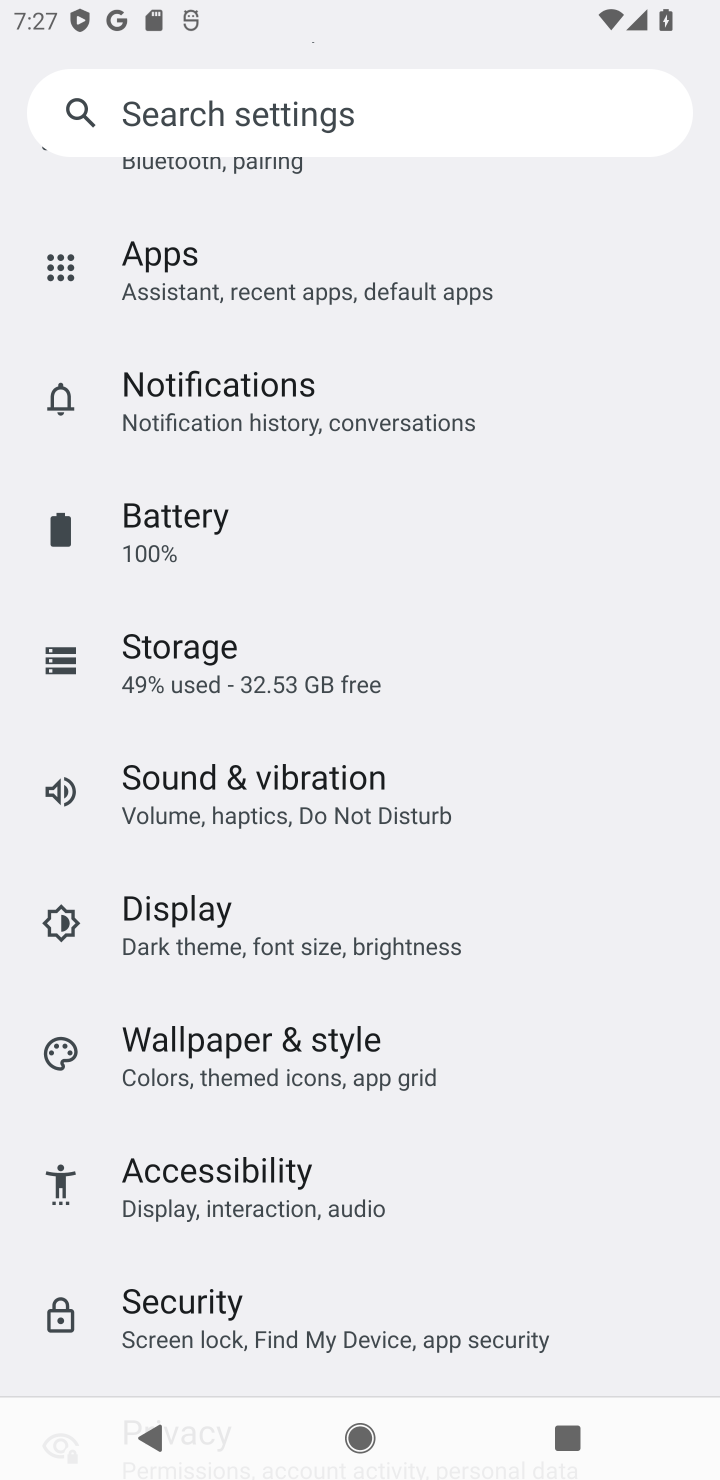
Step 32: drag from (592, 362) to (567, 903)
Your task to perform on an android device: check data usage Image 33: 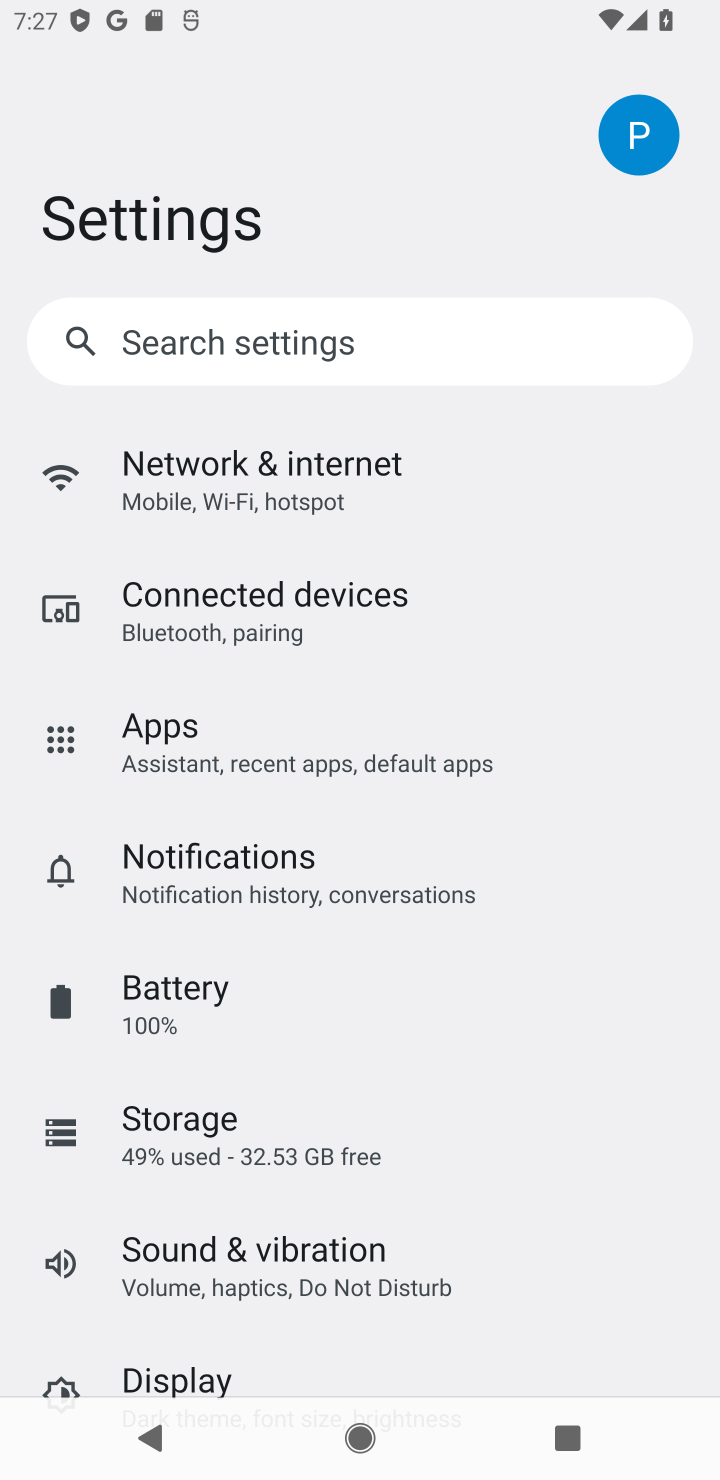
Step 33: drag from (559, 988) to (549, 734)
Your task to perform on an android device: check data usage Image 34: 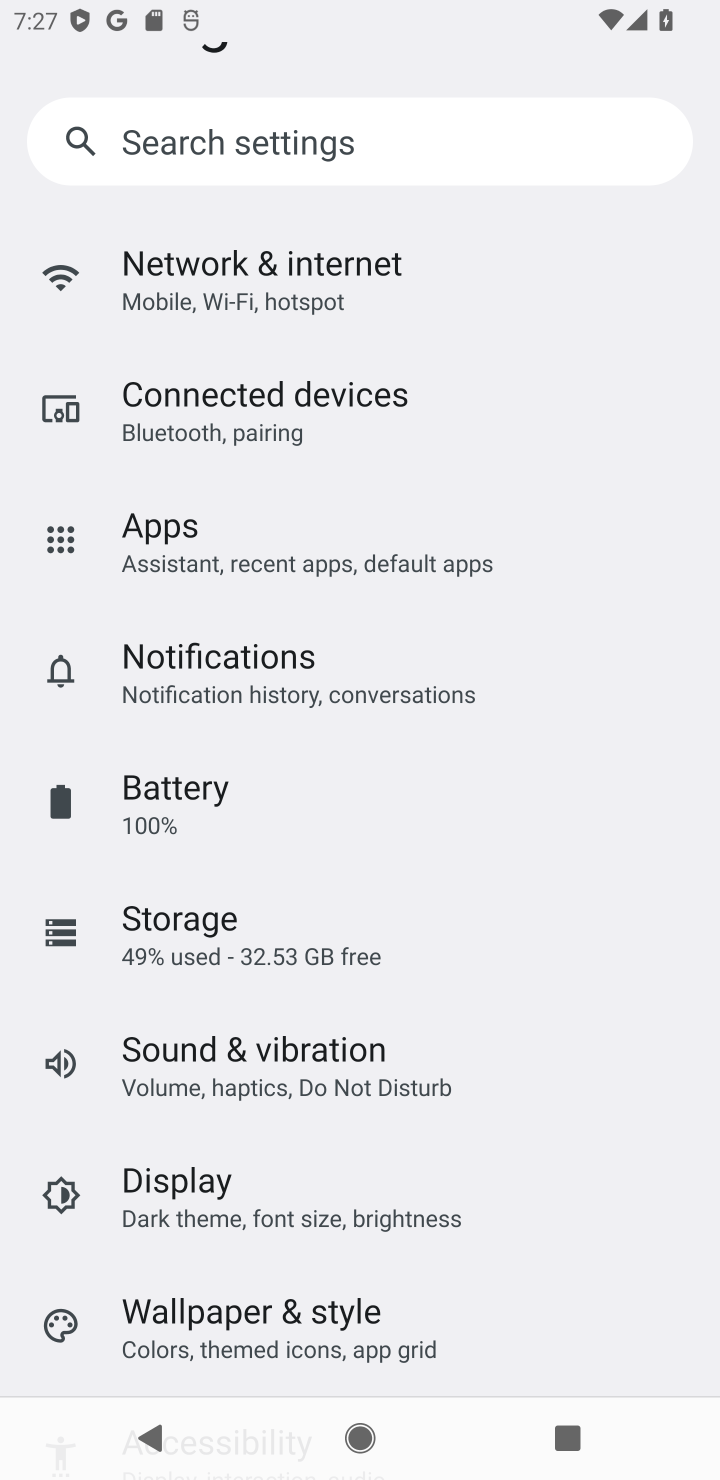
Step 34: drag from (555, 960) to (542, 722)
Your task to perform on an android device: check data usage Image 35: 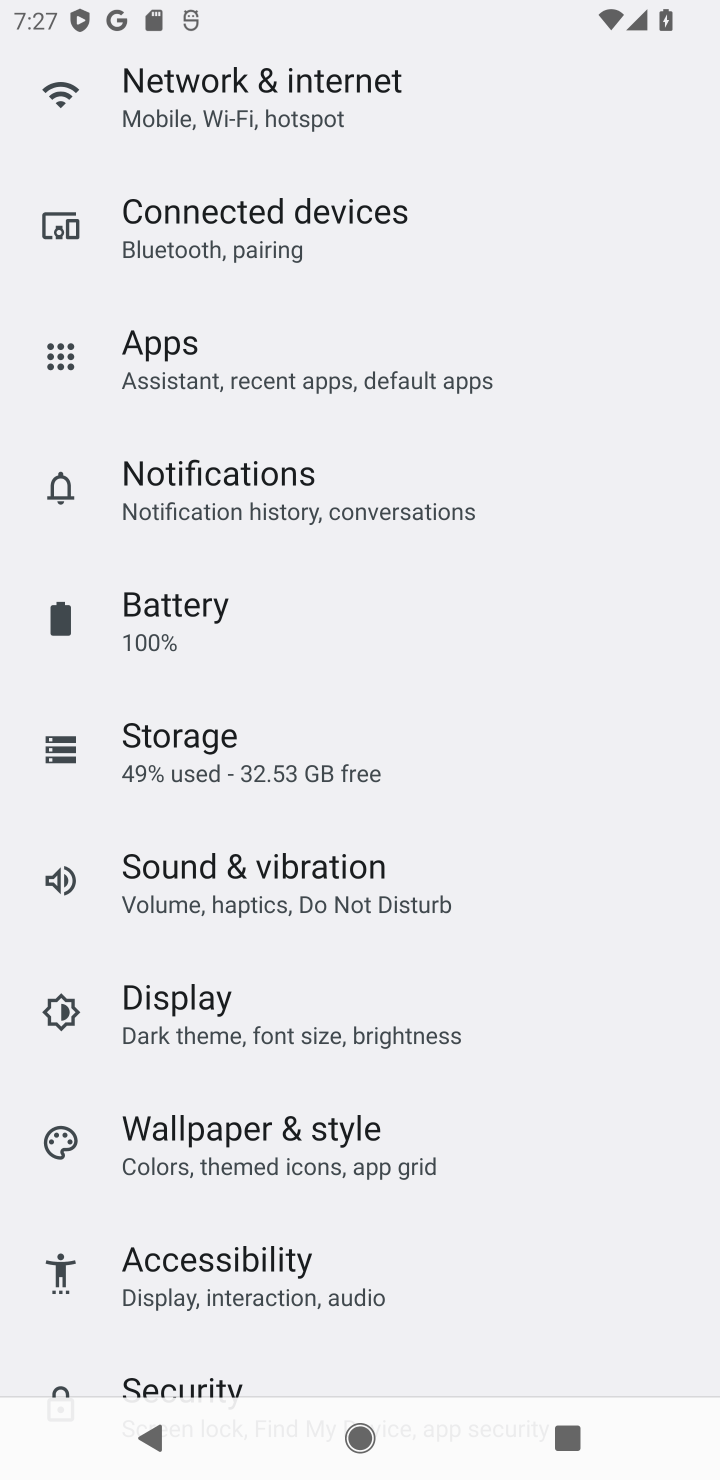
Step 35: drag from (579, 348) to (586, 929)
Your task to perform on an android device: check data usage Image 36: 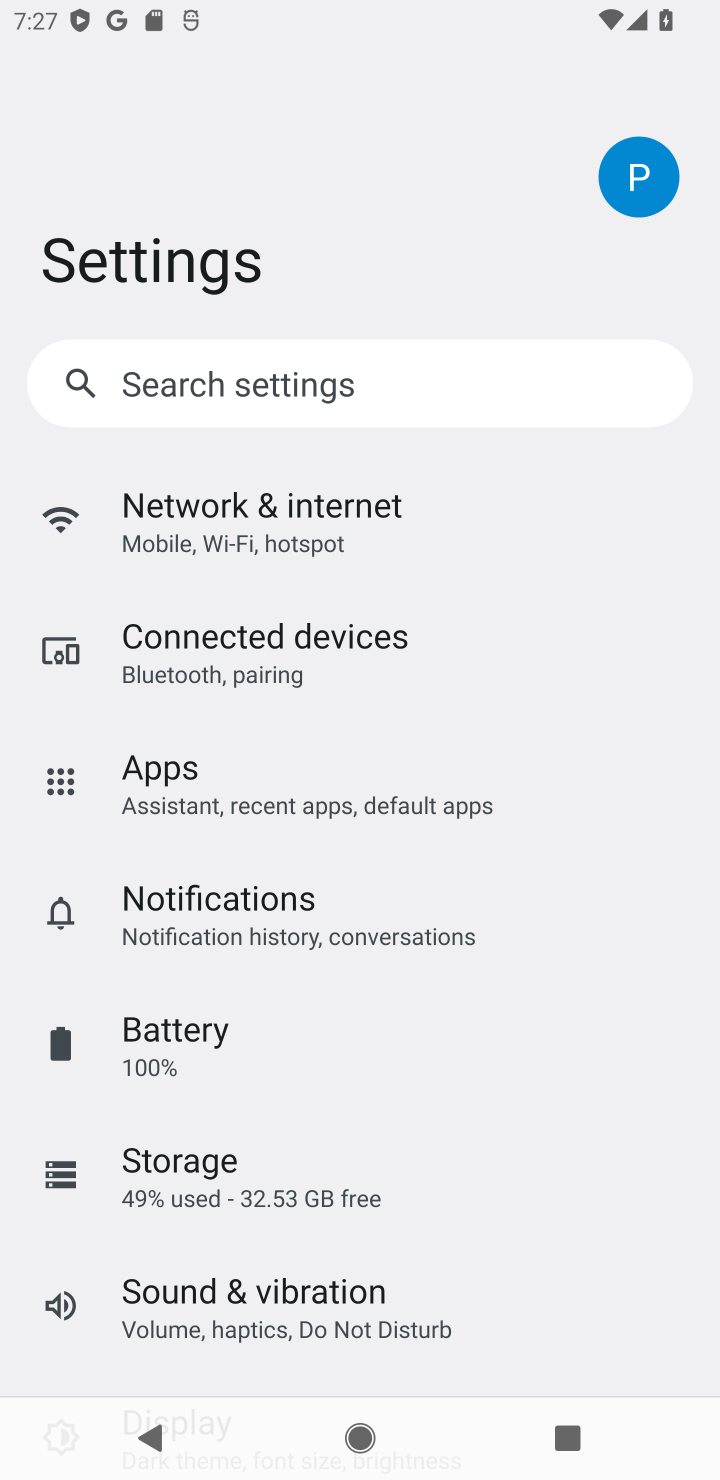
Step 36: click (252, 523)
Your task to perform on an android device: check data usage Image 37: 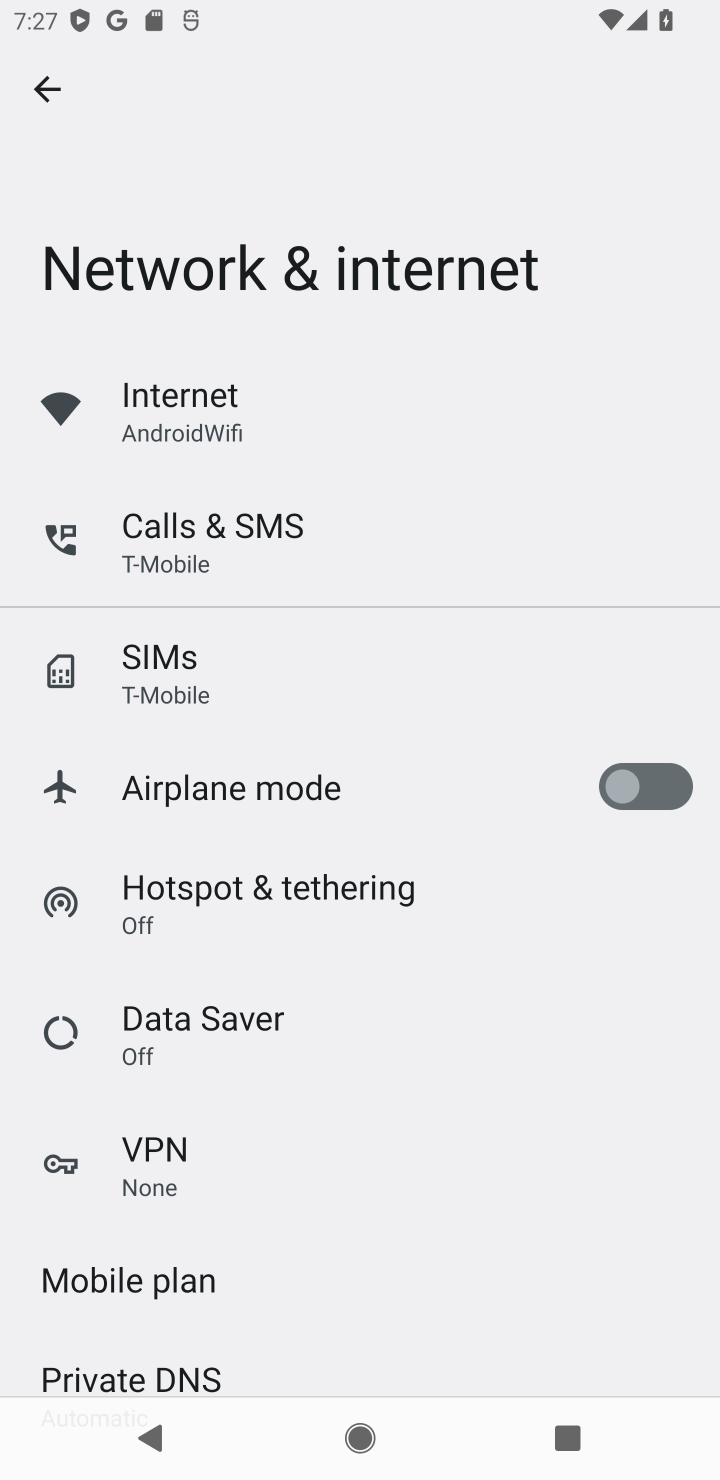
Step 37: drag from (456, 990) to (473, 674)
Your task to perform on an android device: check data usage Image 38: 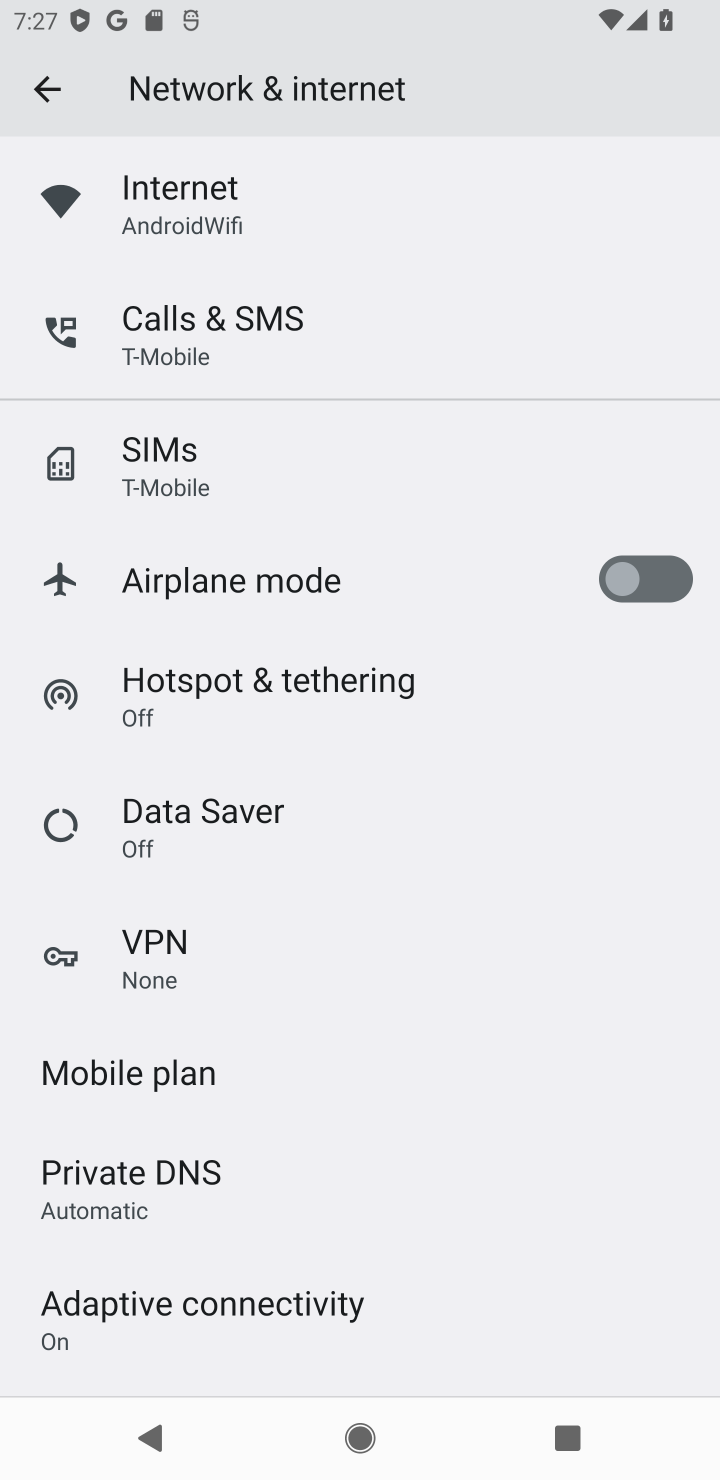
Step 38: drag from (479, 415) to (488, 943)
Your task to perform on an android device: check data usage Image 39: 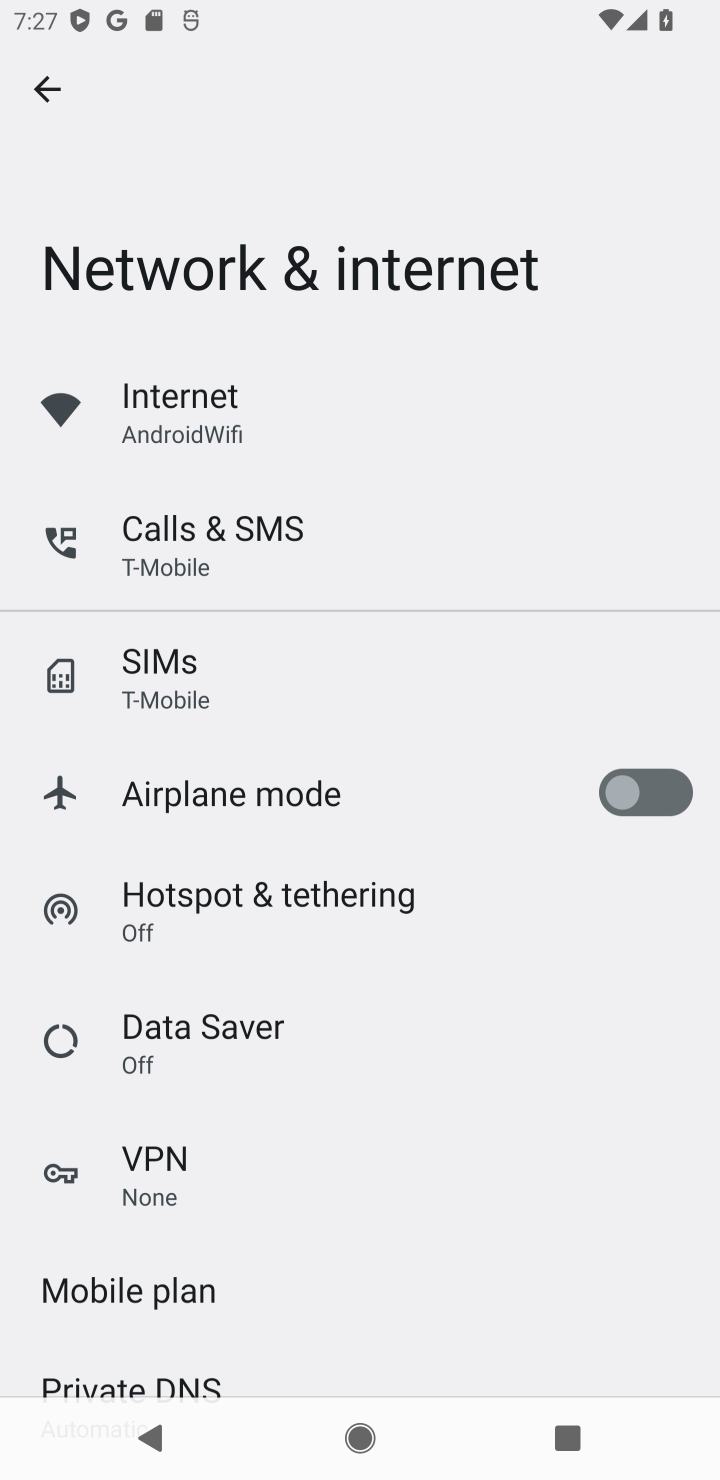
Step 39: click (246, 415)
Your task to perform on an android device: check data usage Image 40: 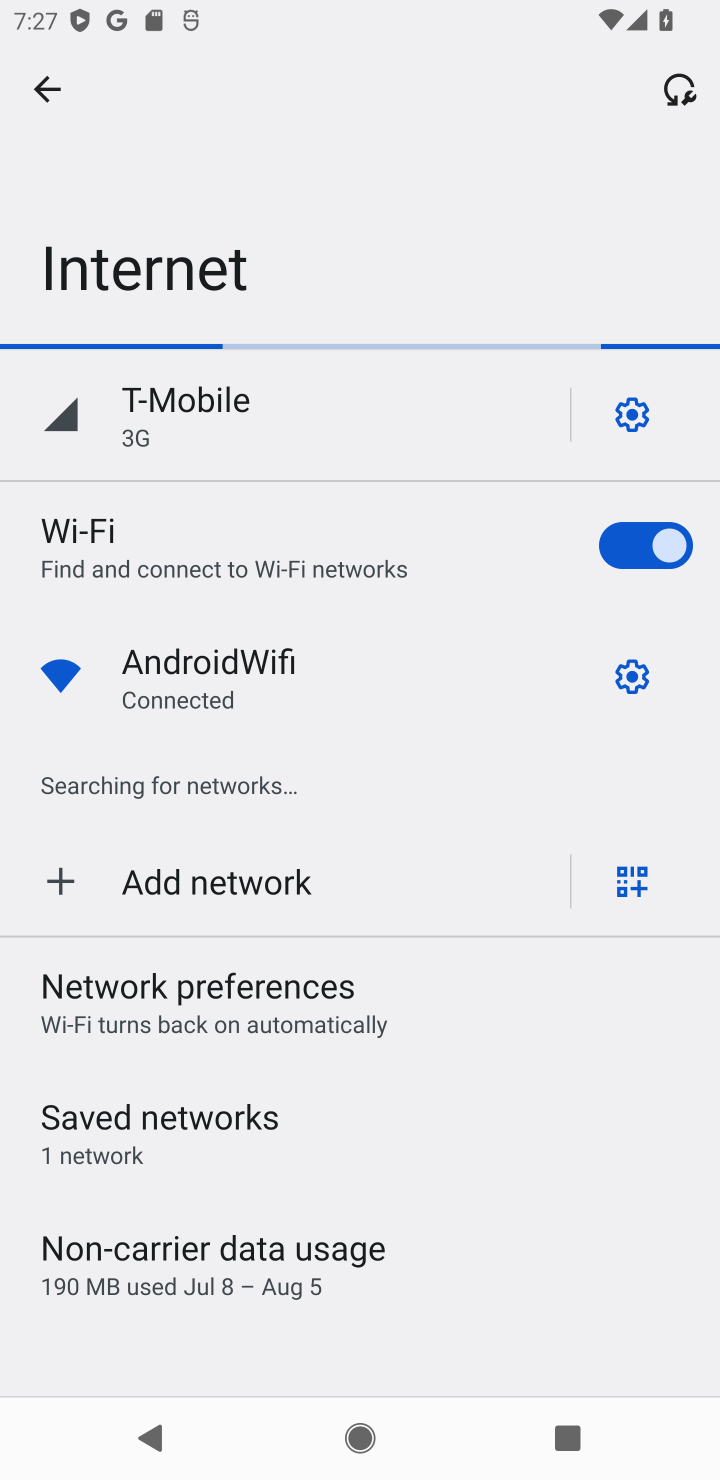
Step 40: click (342, 1264)
Your task to perform on an android device: check data usage Image 41: 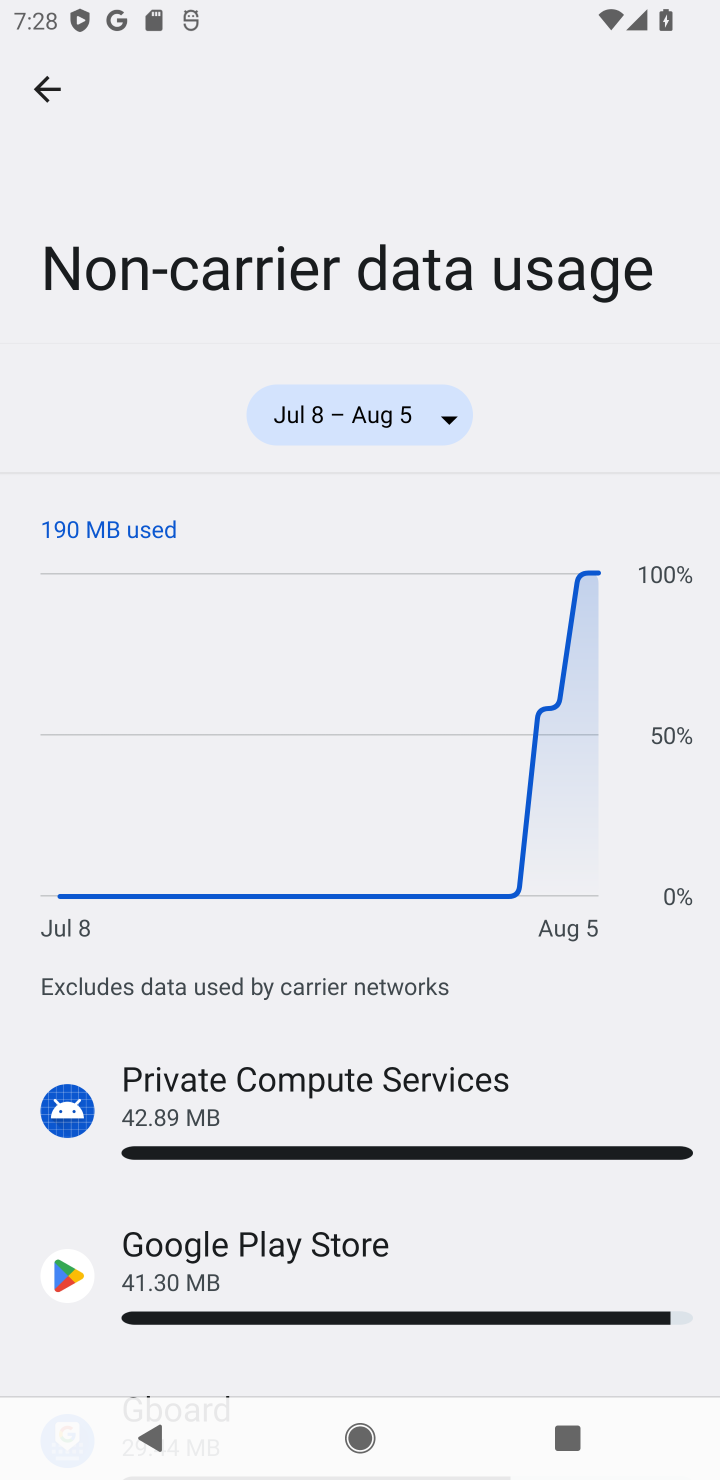
Step 41: task complete